Your task to perform on an android device: What's the news in Uruguay? Image 0: 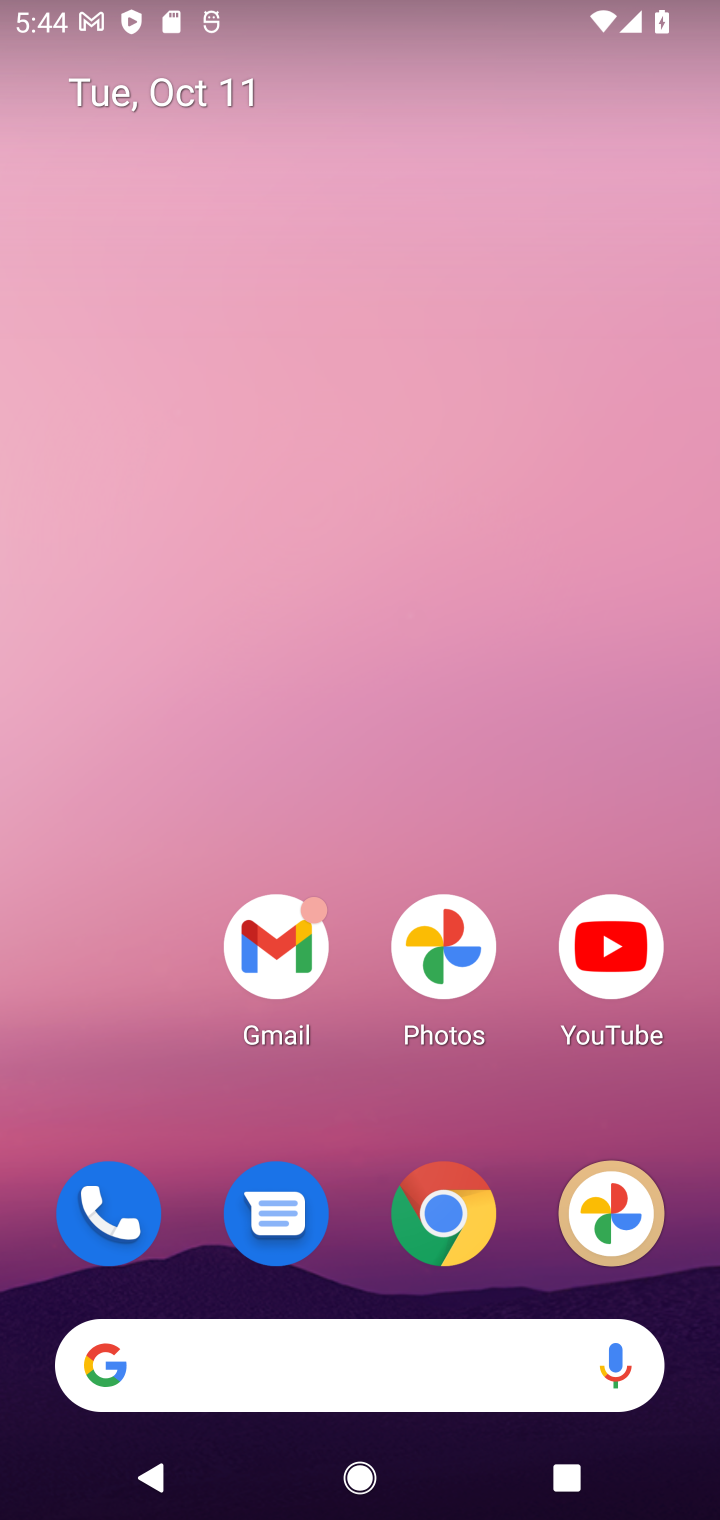
Step 0: click (454, 1255)
Your task to perform on an android device: What's the news in Uruguay? Image 1: 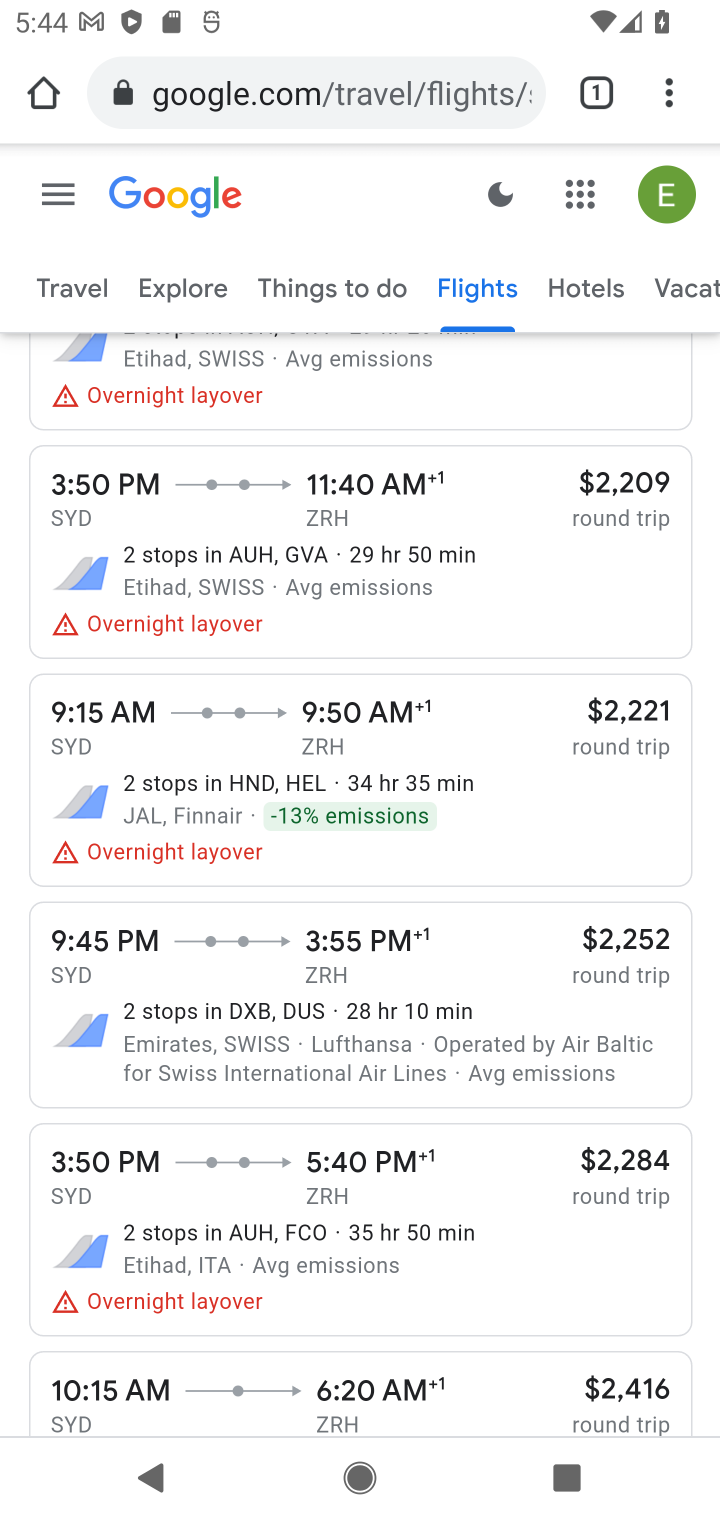
Step 1: click (333, 68)
Your task to perform on an android device: What's the news in Uruguay? Image 2: 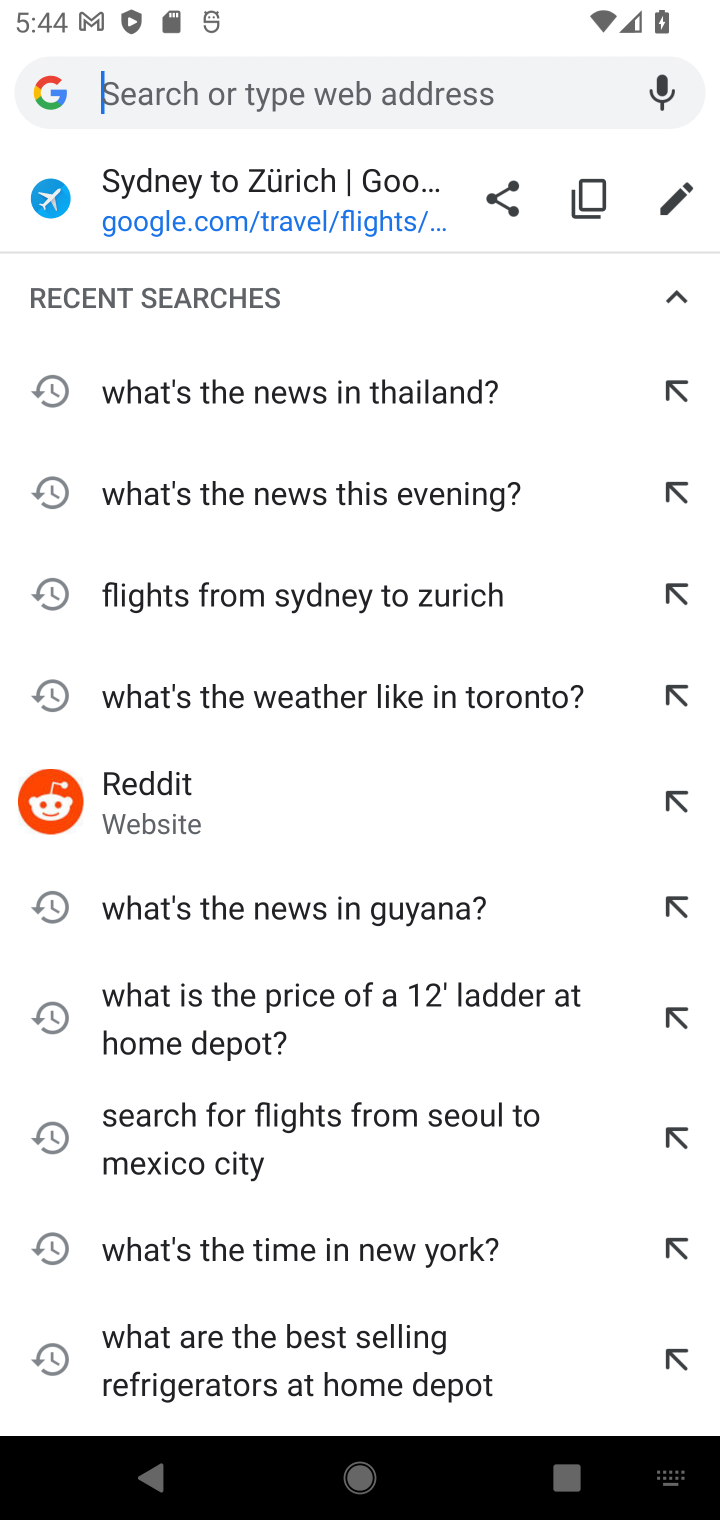
Step 2: type "What's the news in Uruguay?"
Your task to perform on an android device: What's the news in Uruguay? Image 3: 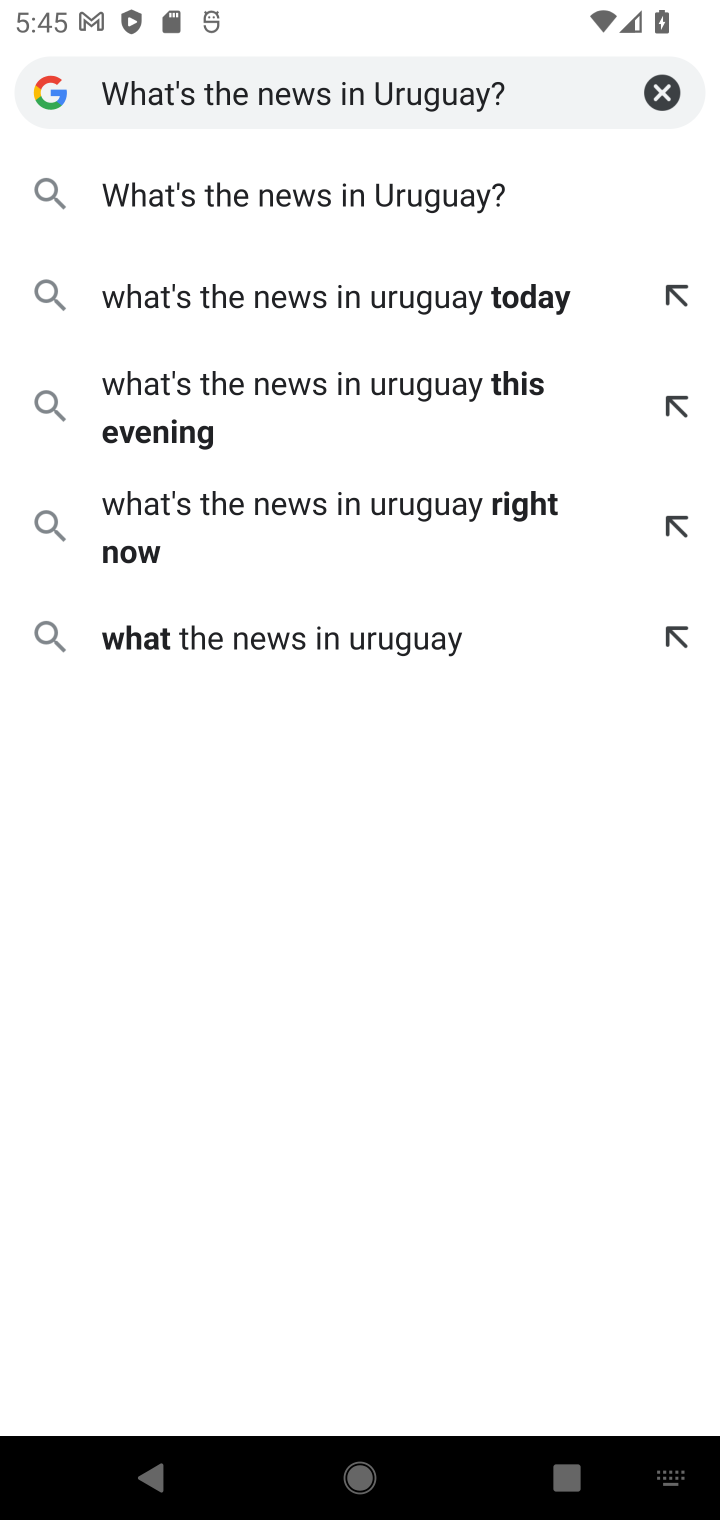
Step 3: press enter
Your task to perform on an android device: What's the news in Uruguay? Image 4: 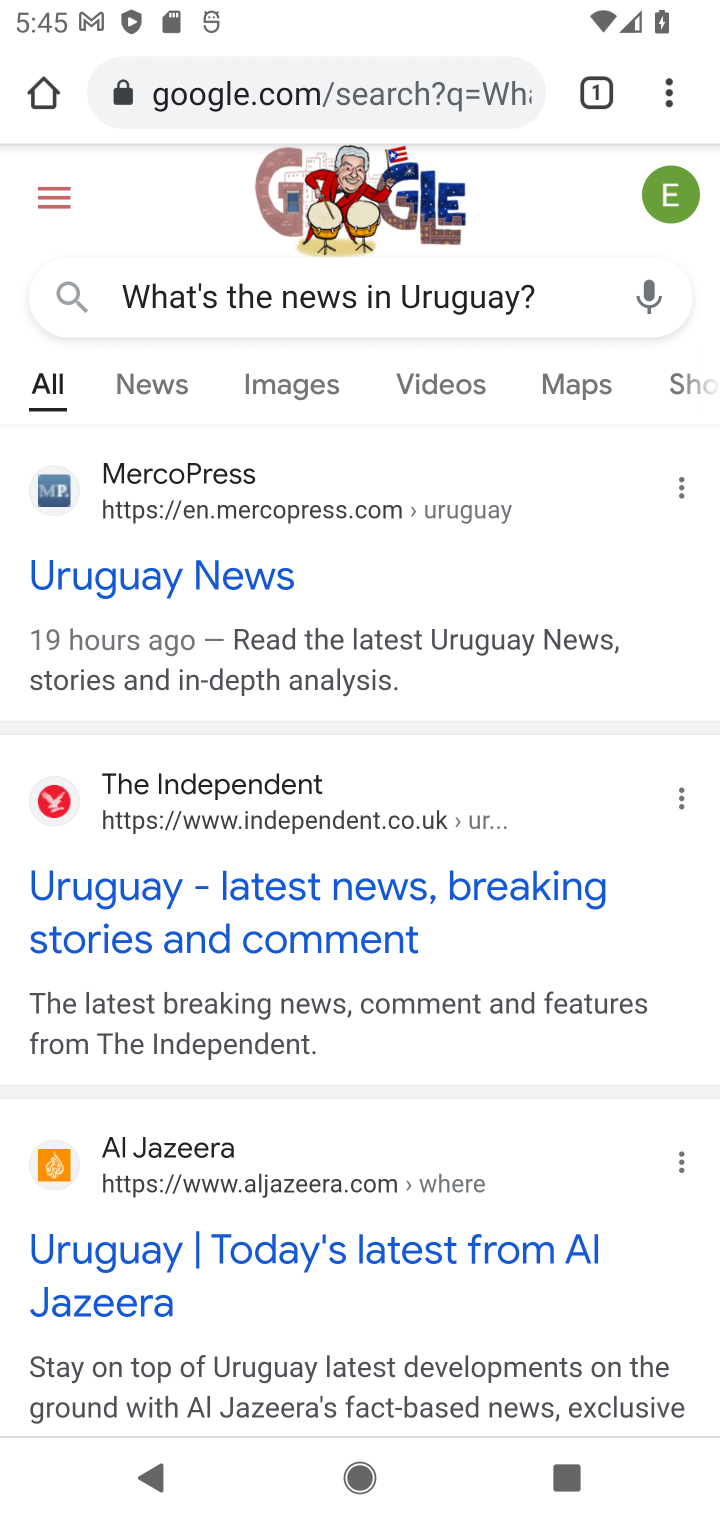
Step 4: click (227, 552)
Your task to perform on an android device: What's the news in Uruguay? Image 5: 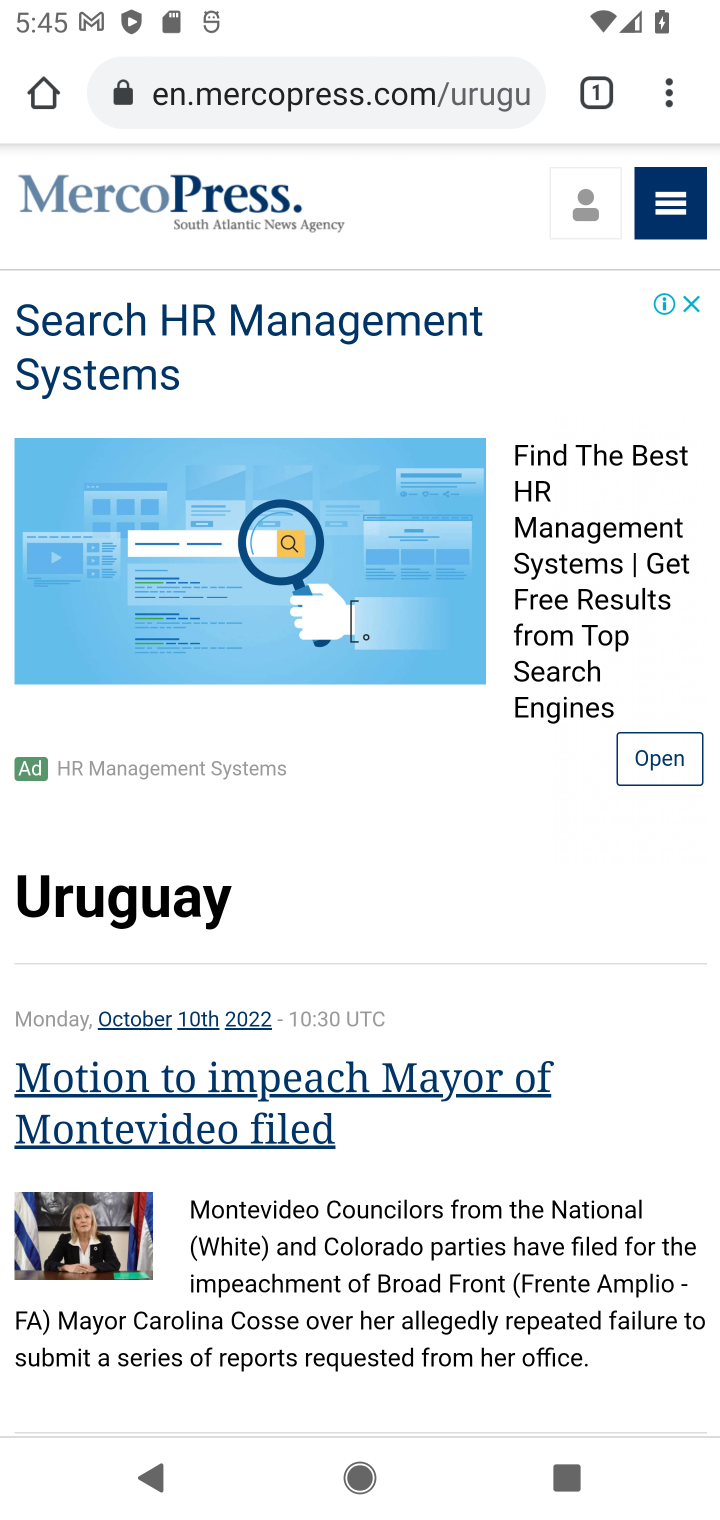
Step 5: drag from (448, 1246) to (432, 131)
Your task to perform on an android device: What's the news in Uruguay? Image 6: 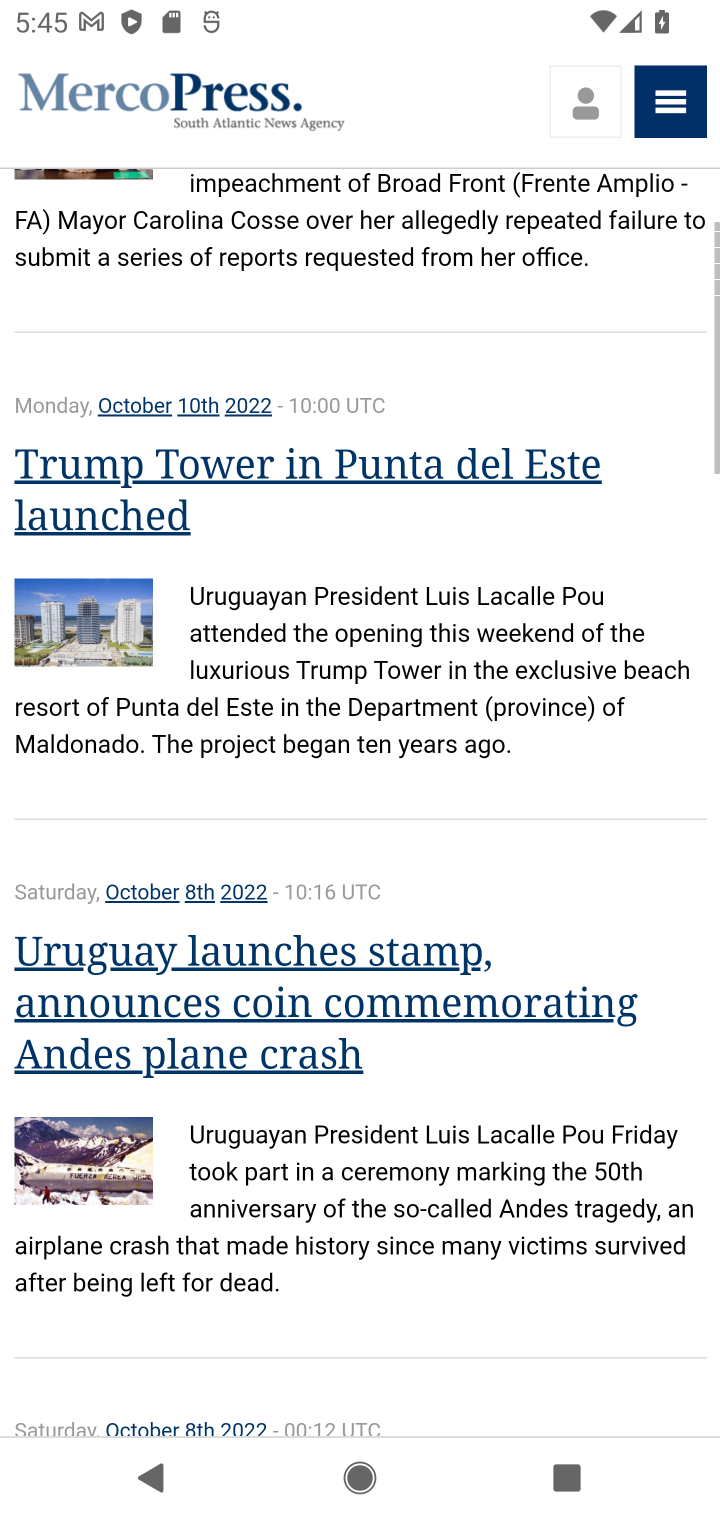
Step 6: drag from (158, 1336) to (397, 356)
Your task to perform on an android device: What's the news in Uruguay? Image 7: 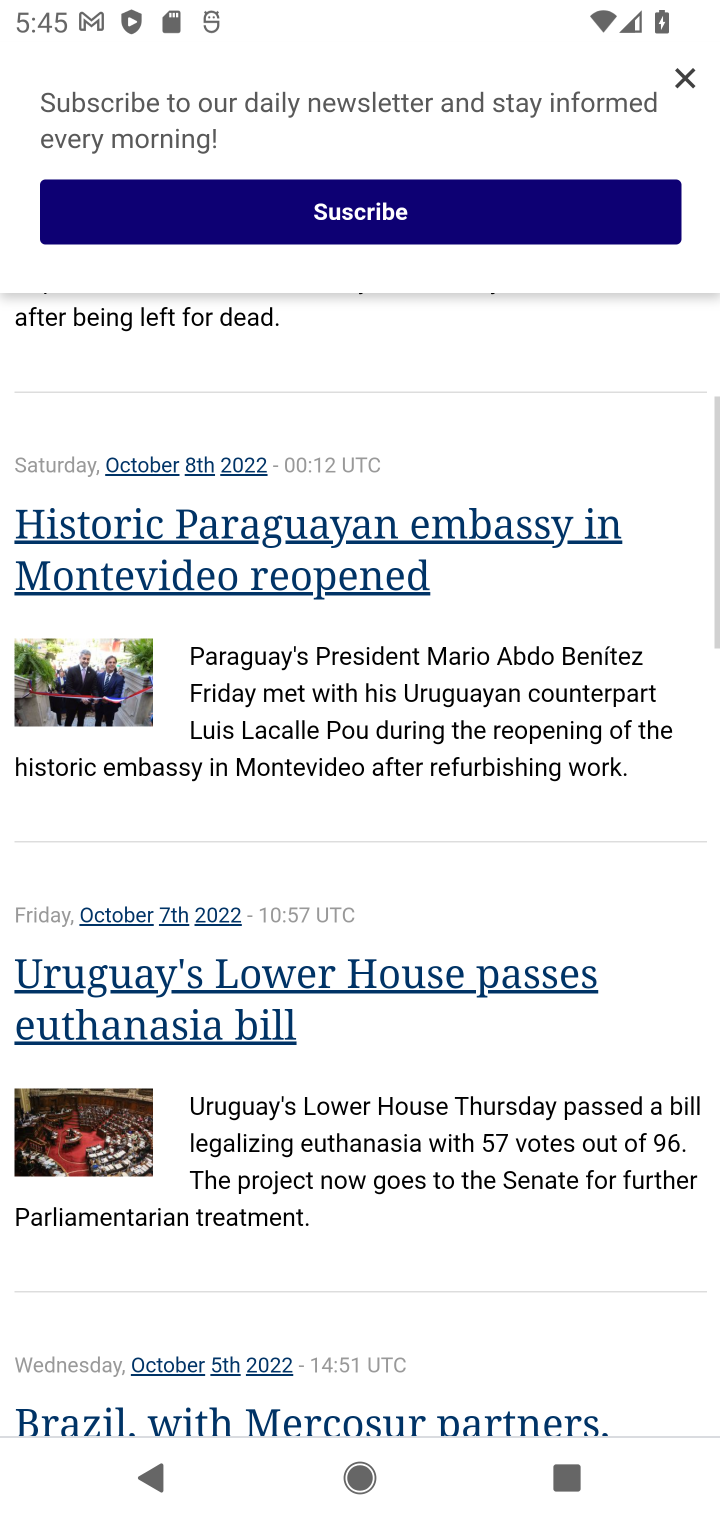
Step 7: drag from (272, 1194) to (370, 520)
Your task to perform on an android device: What's the news in Uruguay? Image 8: 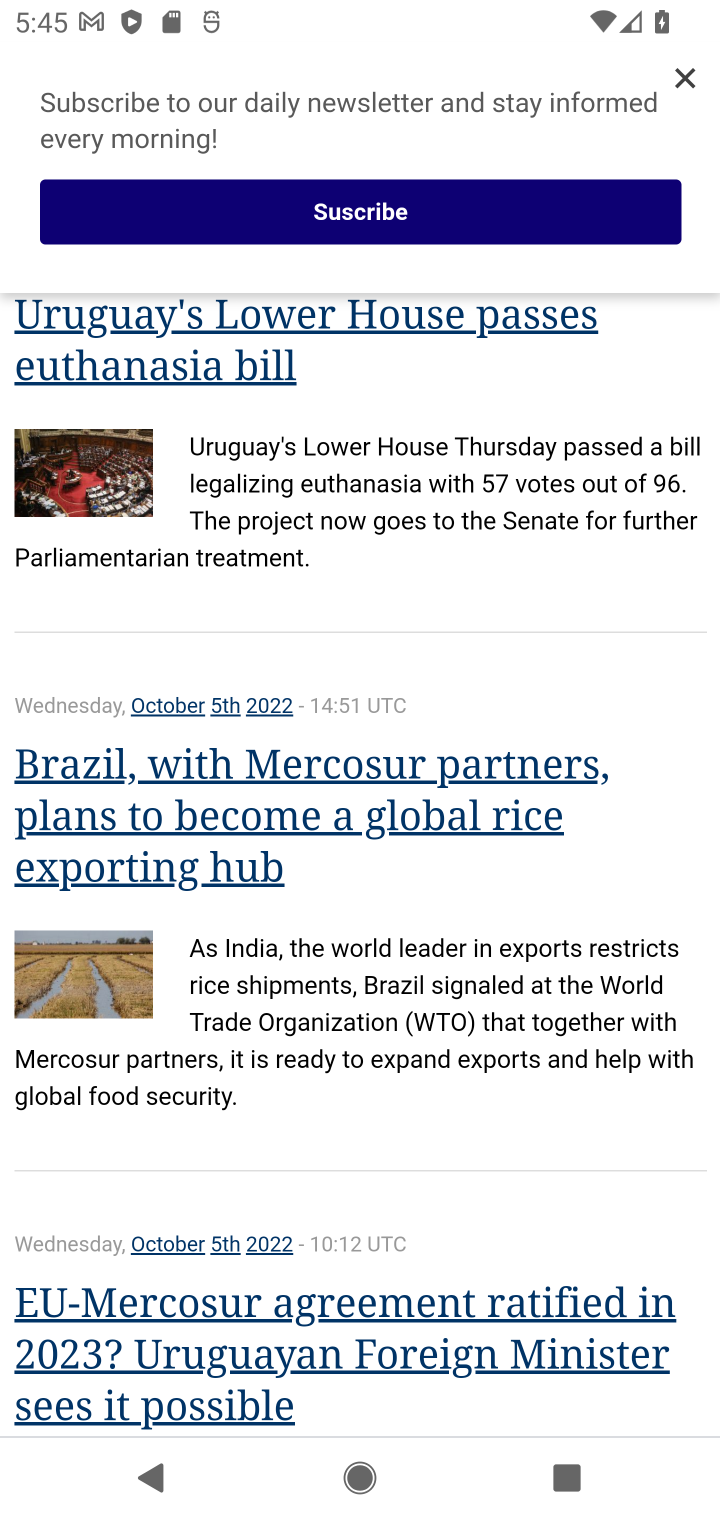
Step 8: drag from (387, 1254) to (496, 47)
Your task to perform on an android device: What's the news in Uruguay? Image 9: 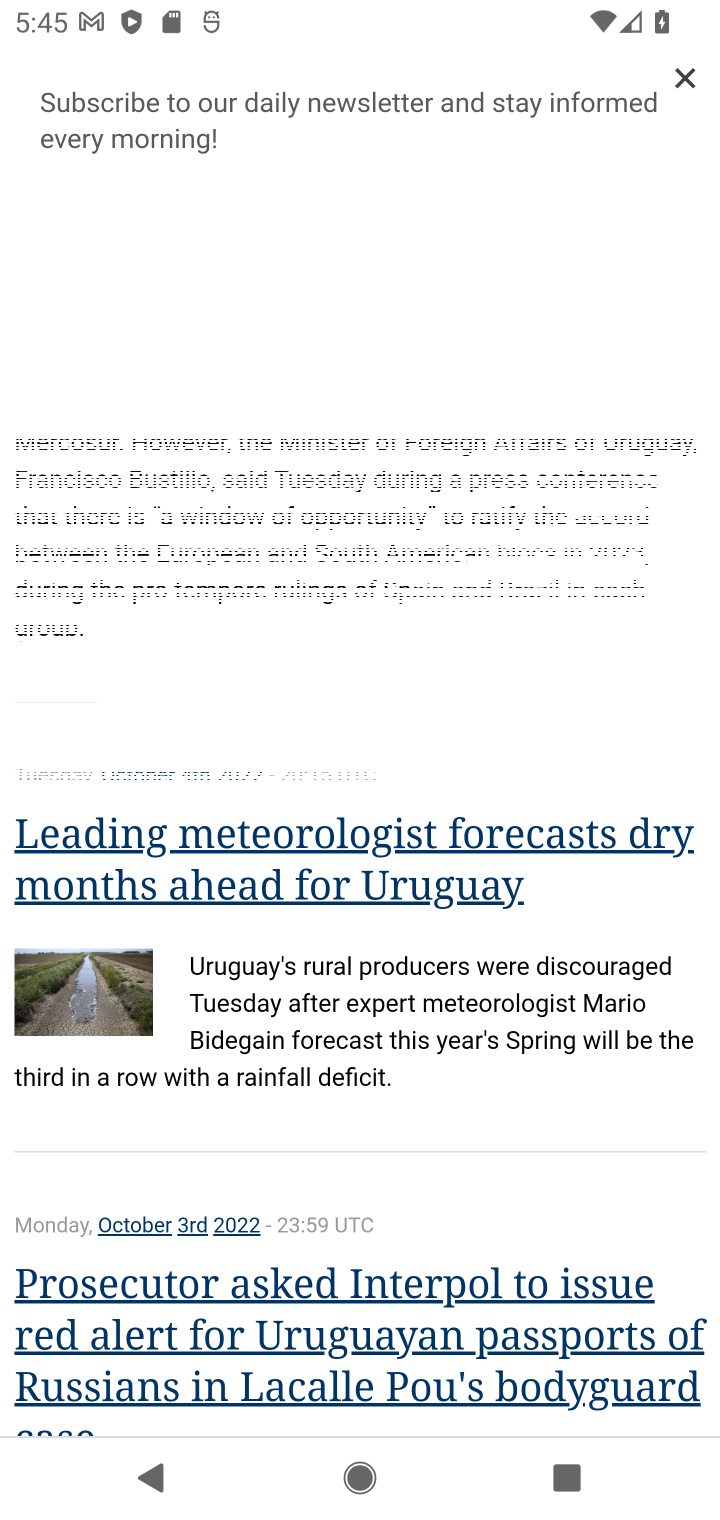
Step 9: drag from (311, 1385) to (450, 284)
Your task to perform on an android device: What's the news in Uruguay? Image 10: 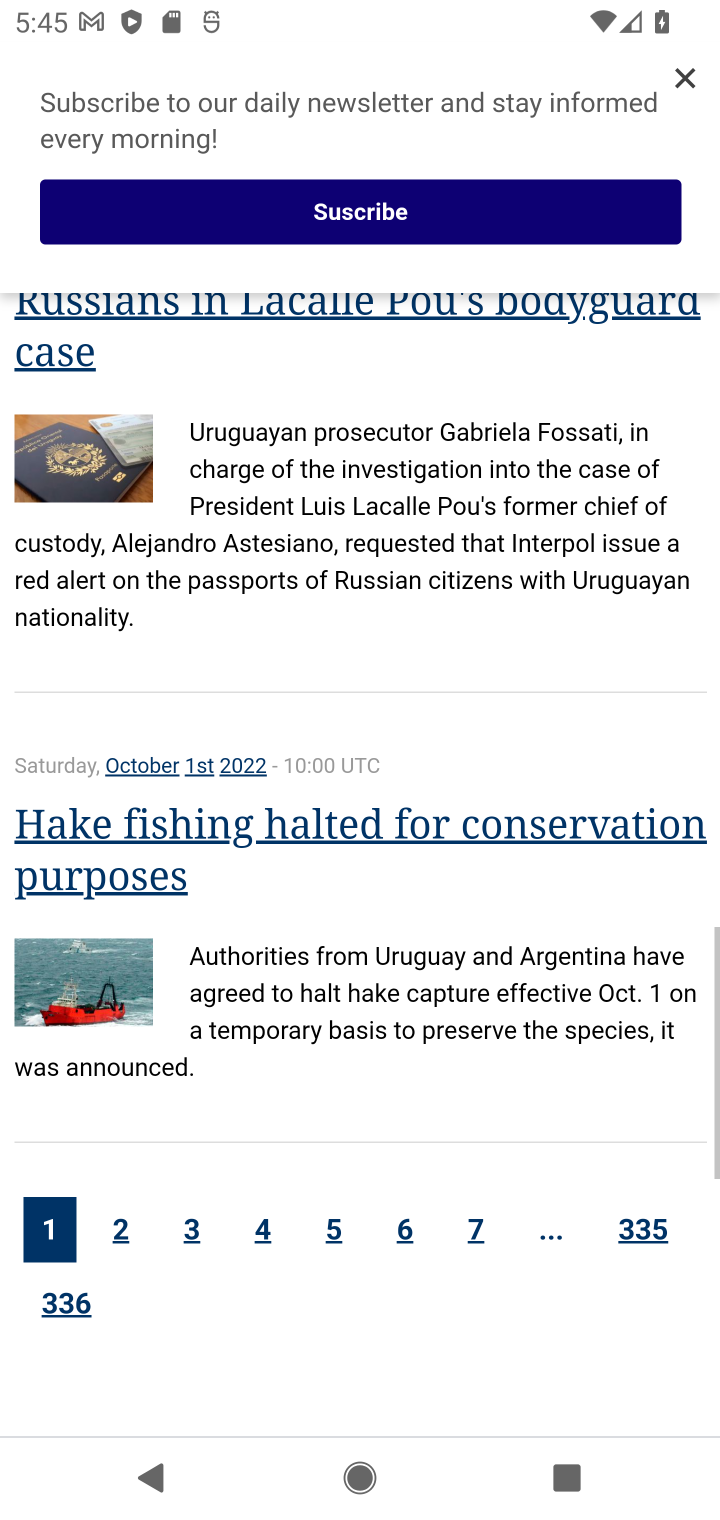
Step 10: drag from (309, 1402) to (399, 367)
Your task to perform on an android device: What's the news in Uruguay? Image 11: 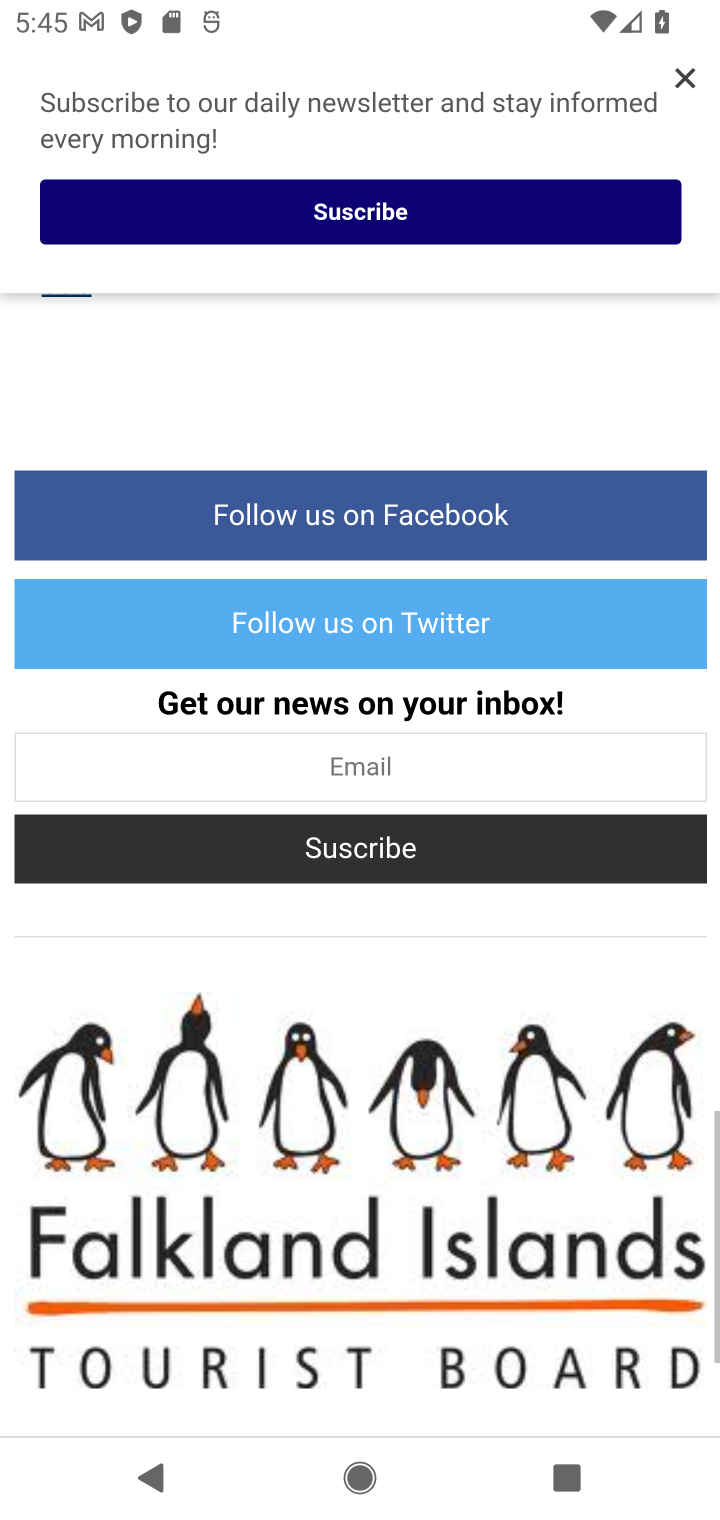
Step 11: drag from (230, 1421) to (285, 1082)
Your task to perform on an android device: What's the news in Uruguay? Image 12: 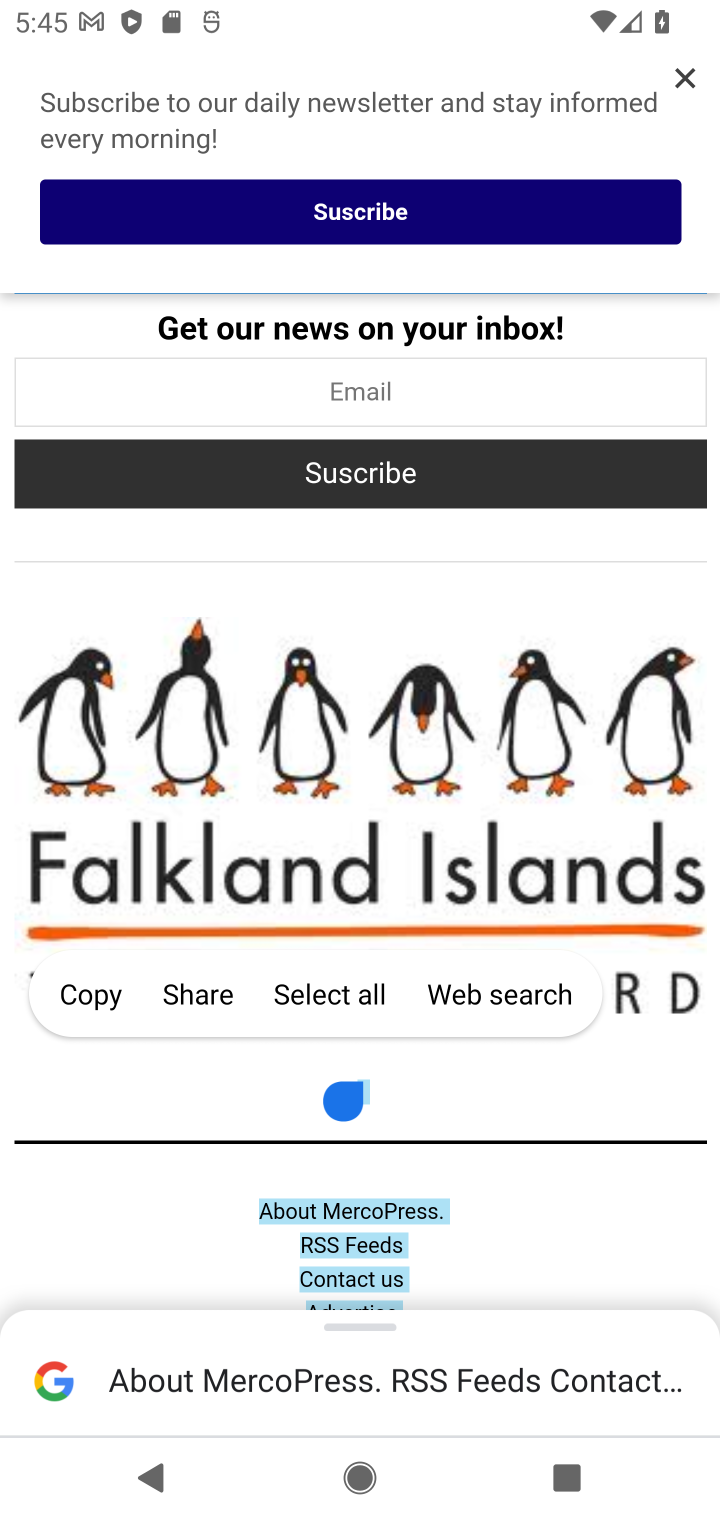
Step 12: drag from (367, 358) to (250, 1018)
Your task to perform on an android device: What's the news in Uruguay? Image 13: 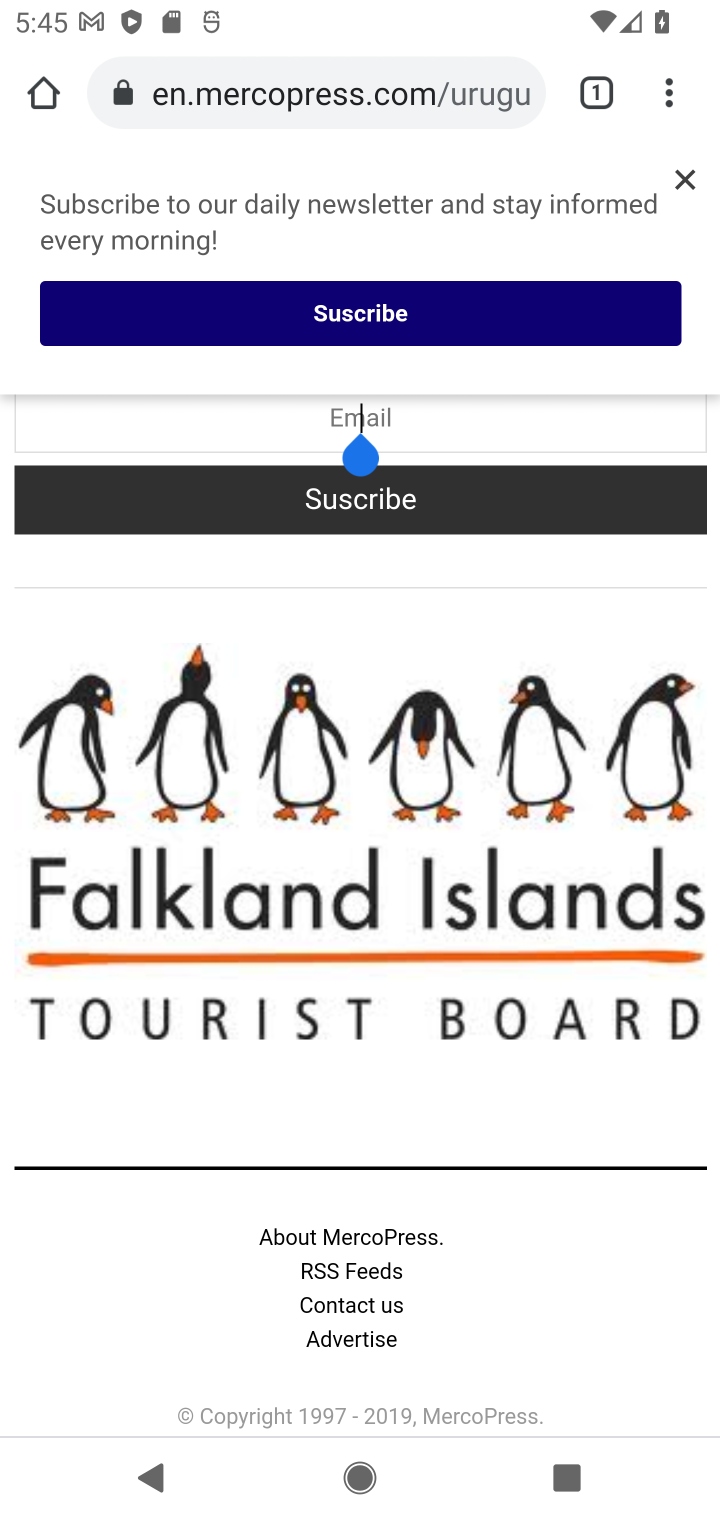
Step 13: click (160, 1203)
Your task to perform on an android device: What's the news in Uruguay? Image 14: 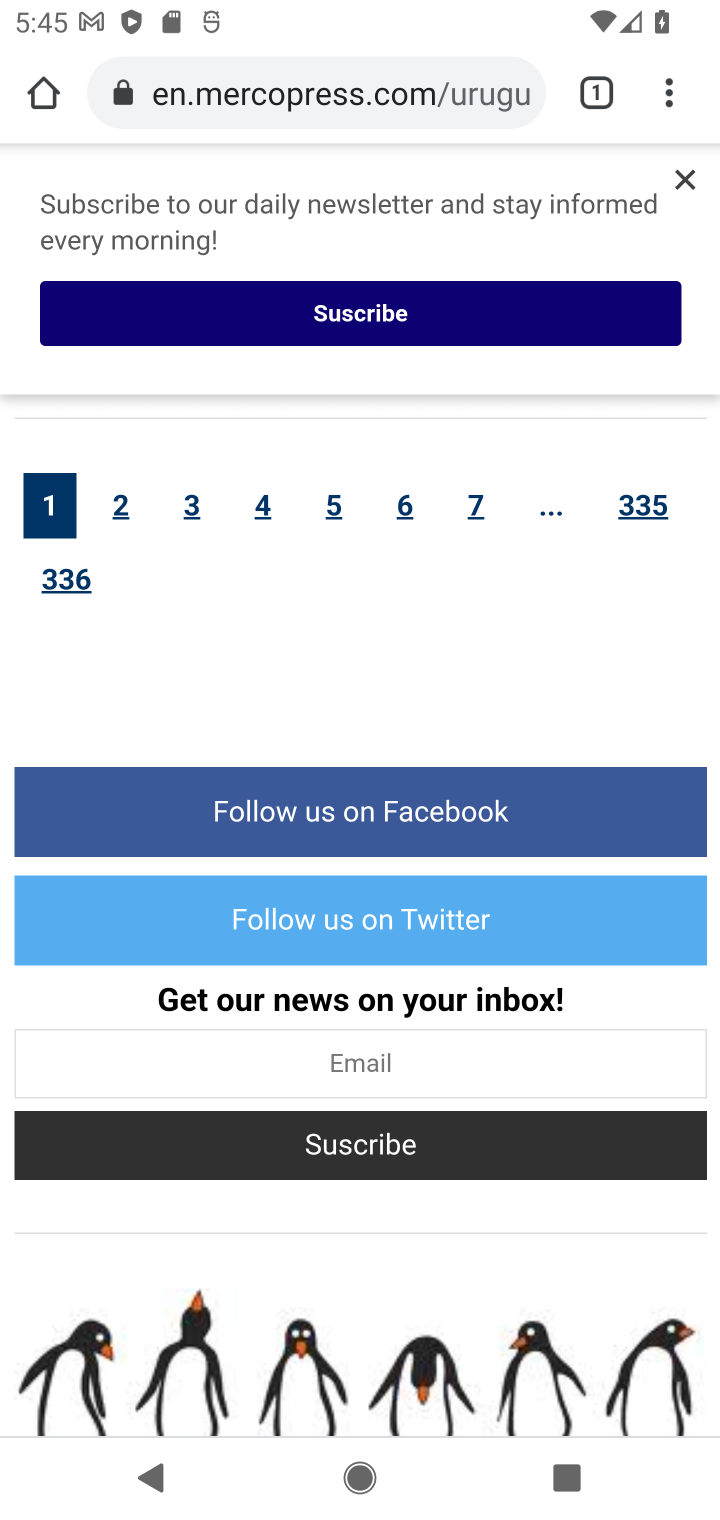
Step 14: click (124, 507)
Your task to perform on an android device: What's the news in Uruguay? Image 15: 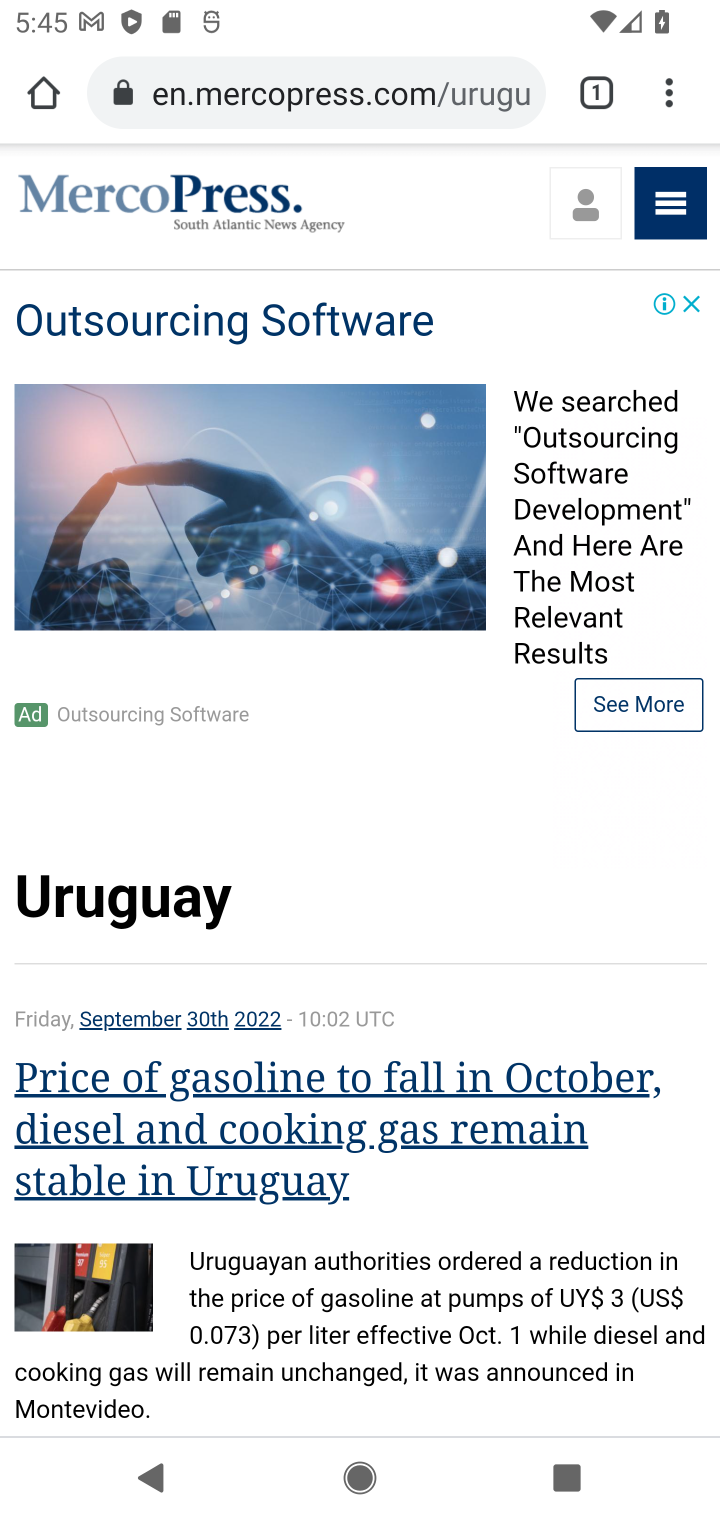
Step 15: drag from (219, 1002) to (292, 429)
Your task to perform on an android device: What's the news in Uruguay? Image 16: 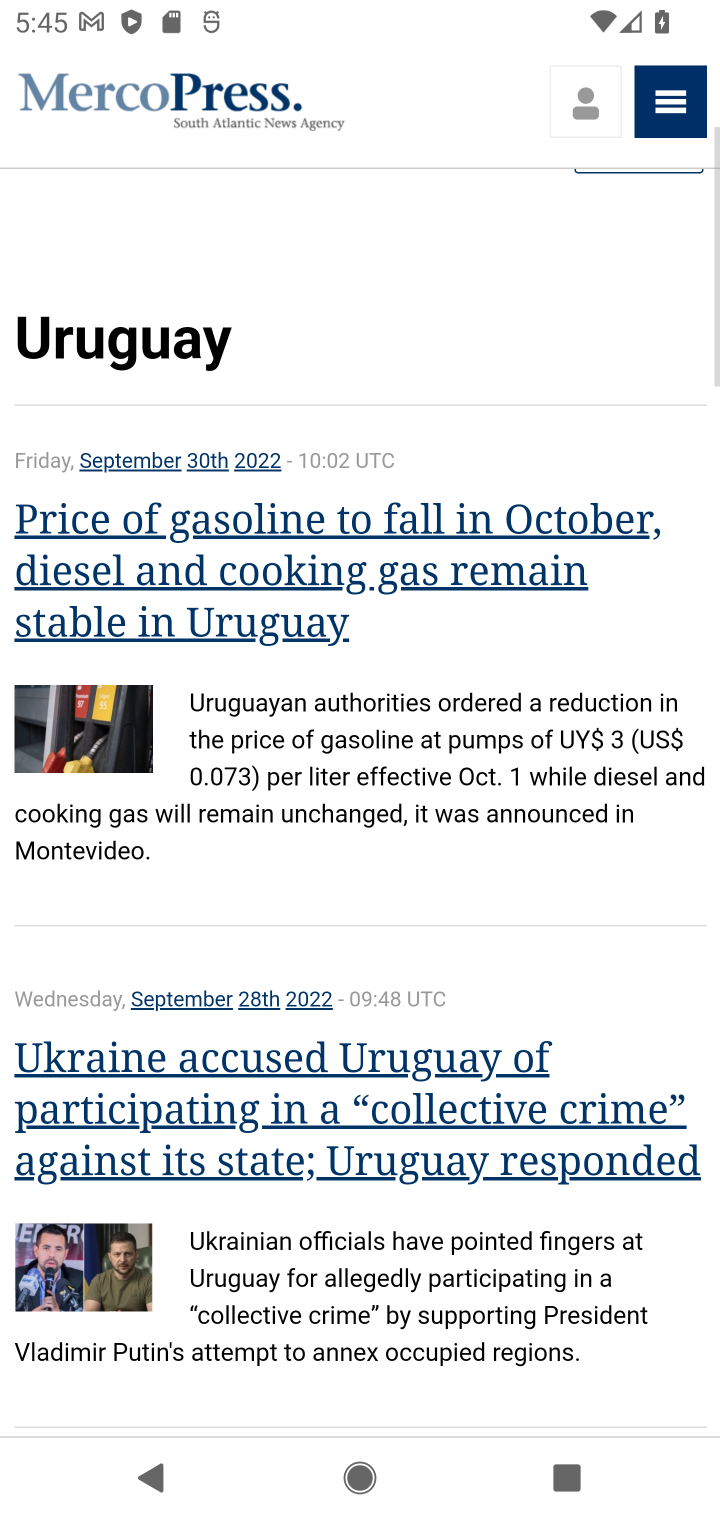
Step 16: press back button
Your task to perform on an android device: What's the news in Uruguay? Image 17: 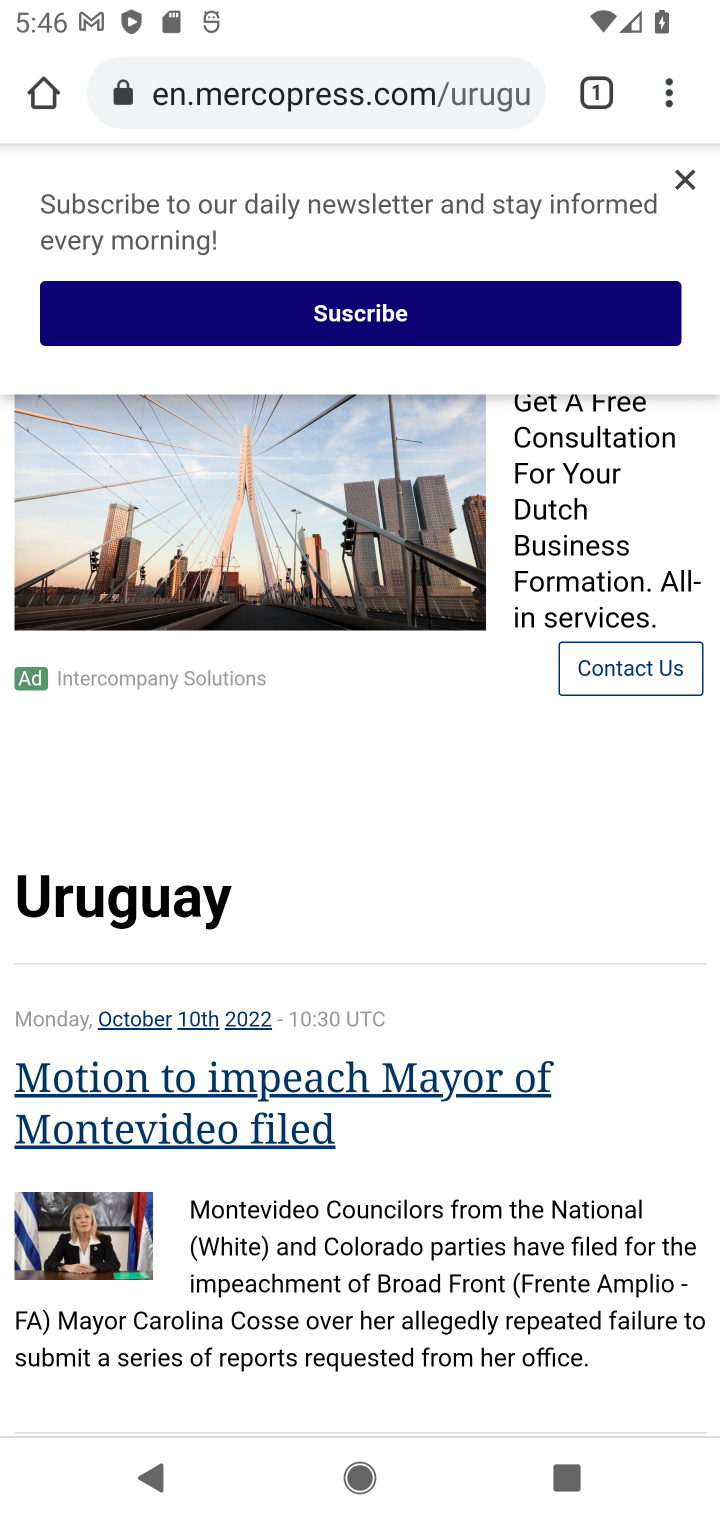
Step 17: press back button
Your task to perform on an android device: What's the news in Uruguay? Image 18: 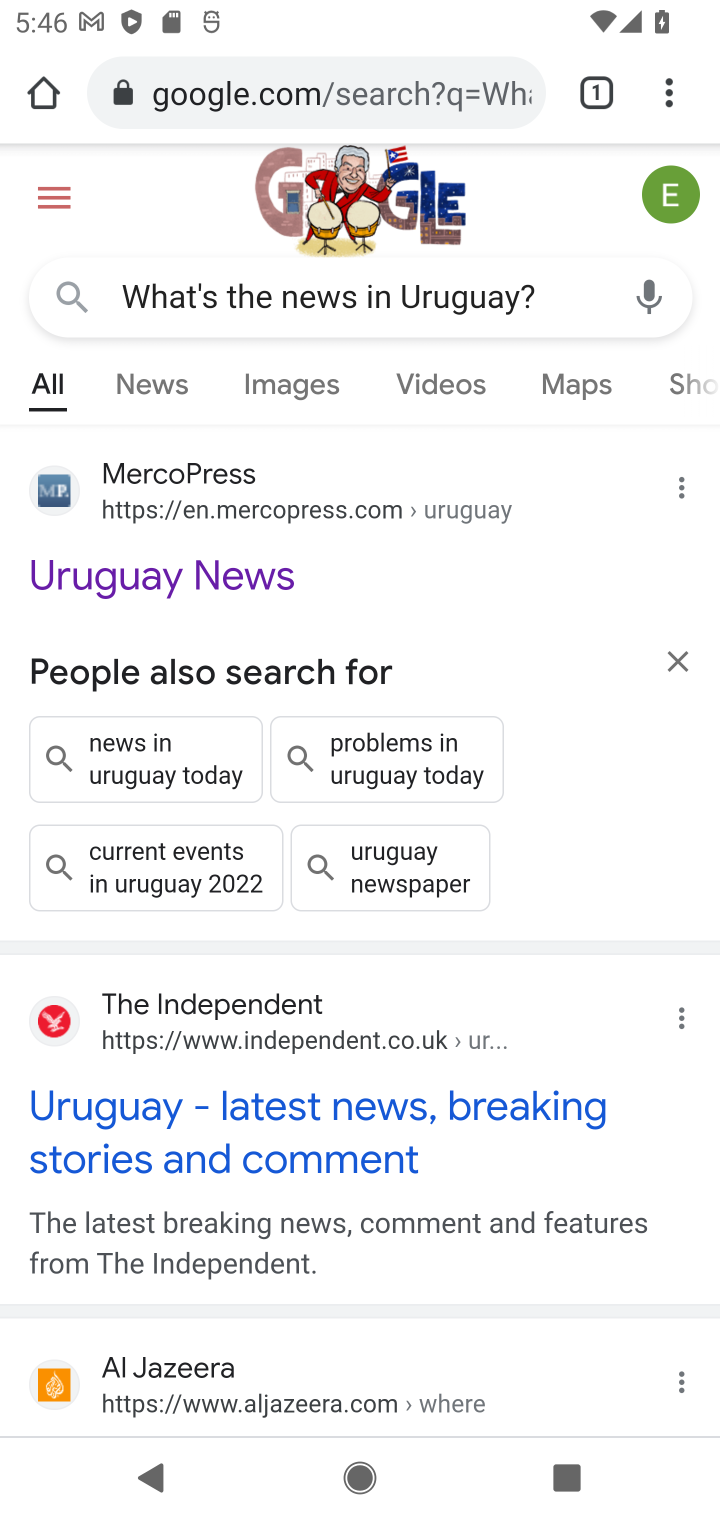
Step 18: click (289, 1109)
Your task to perform on an android device: What's the news in Uruguay? Image 19: 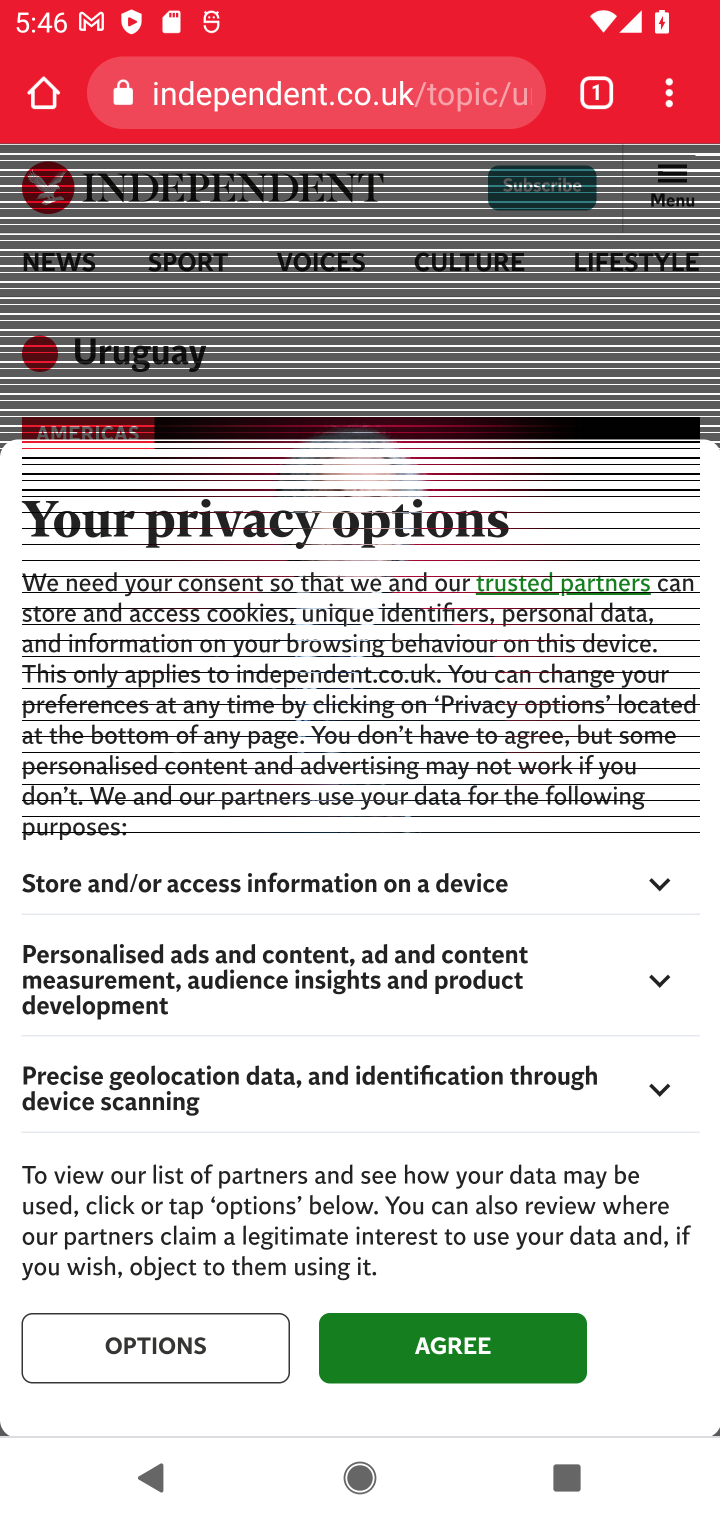
Step 19: click (368, 1342)
Your task to perform on an android device: What's the news in Uruguay? Image 20: 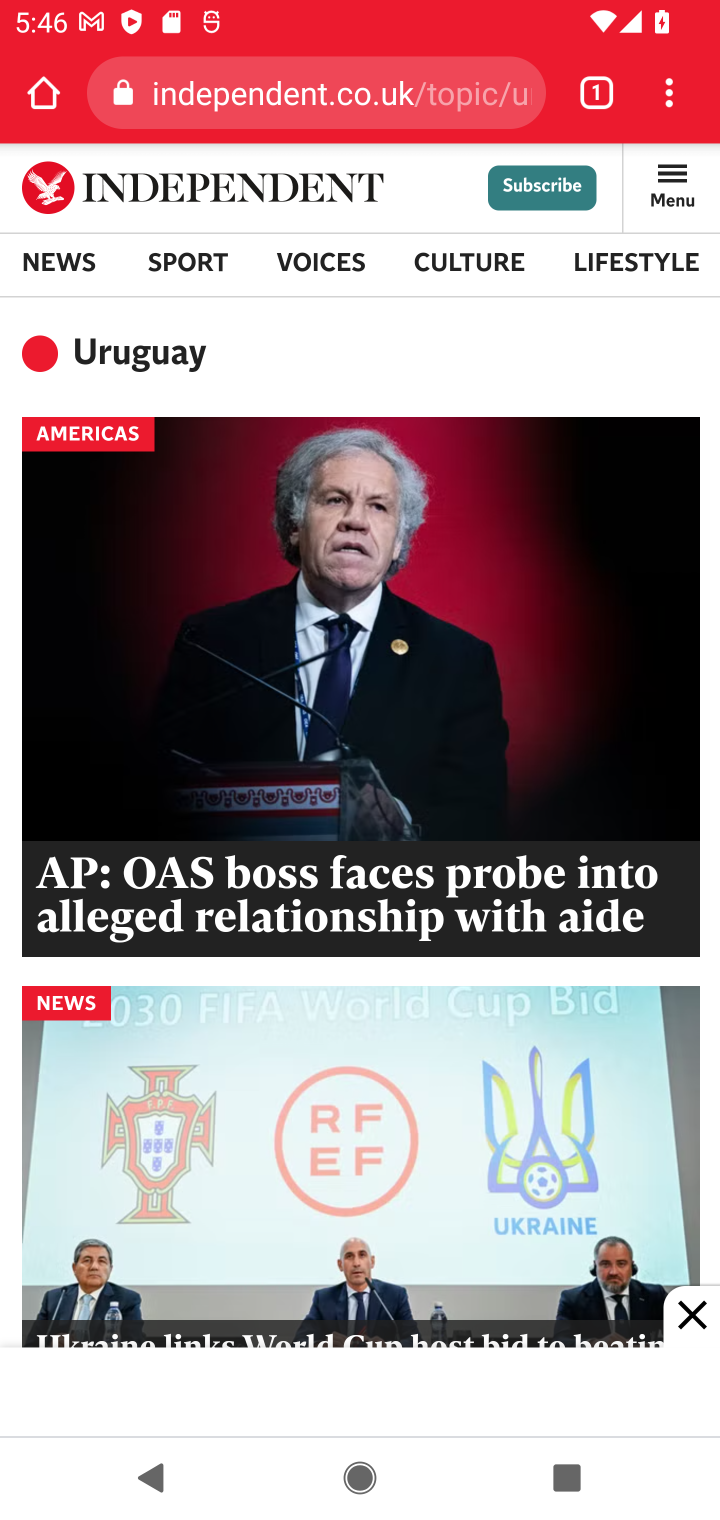
Step 20: drag from (370, 1315) to (360, 260)
Your task to perform on an android device: What's the news in Uruguay? Image 21: 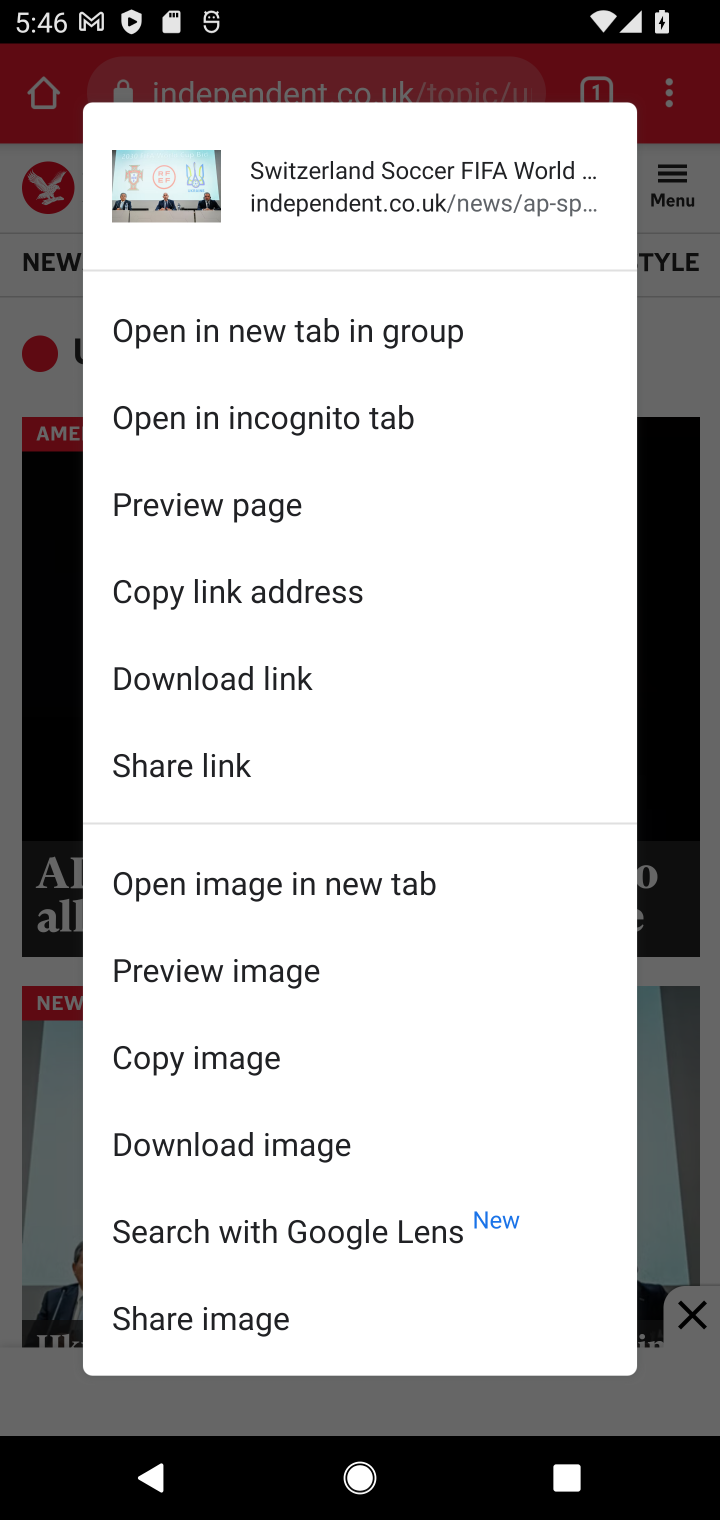
Step 21: click (669, 786)
Your task to perform on an android device: What's the news in Uruguay? Image 22: 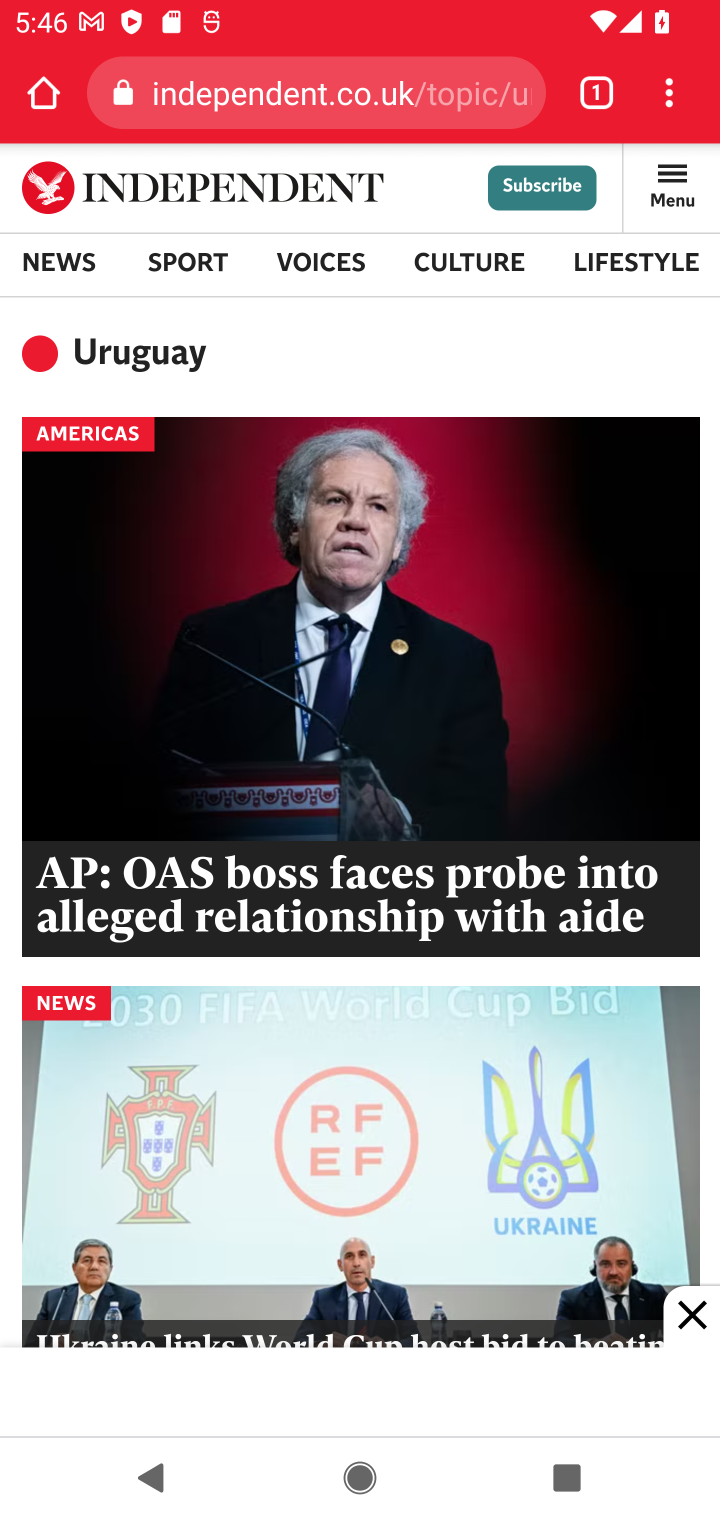
Step 22: drag from (514, 1222) to (435, 364)
Your task to perform on an android device: What's the news in Uruguay? Image 23: 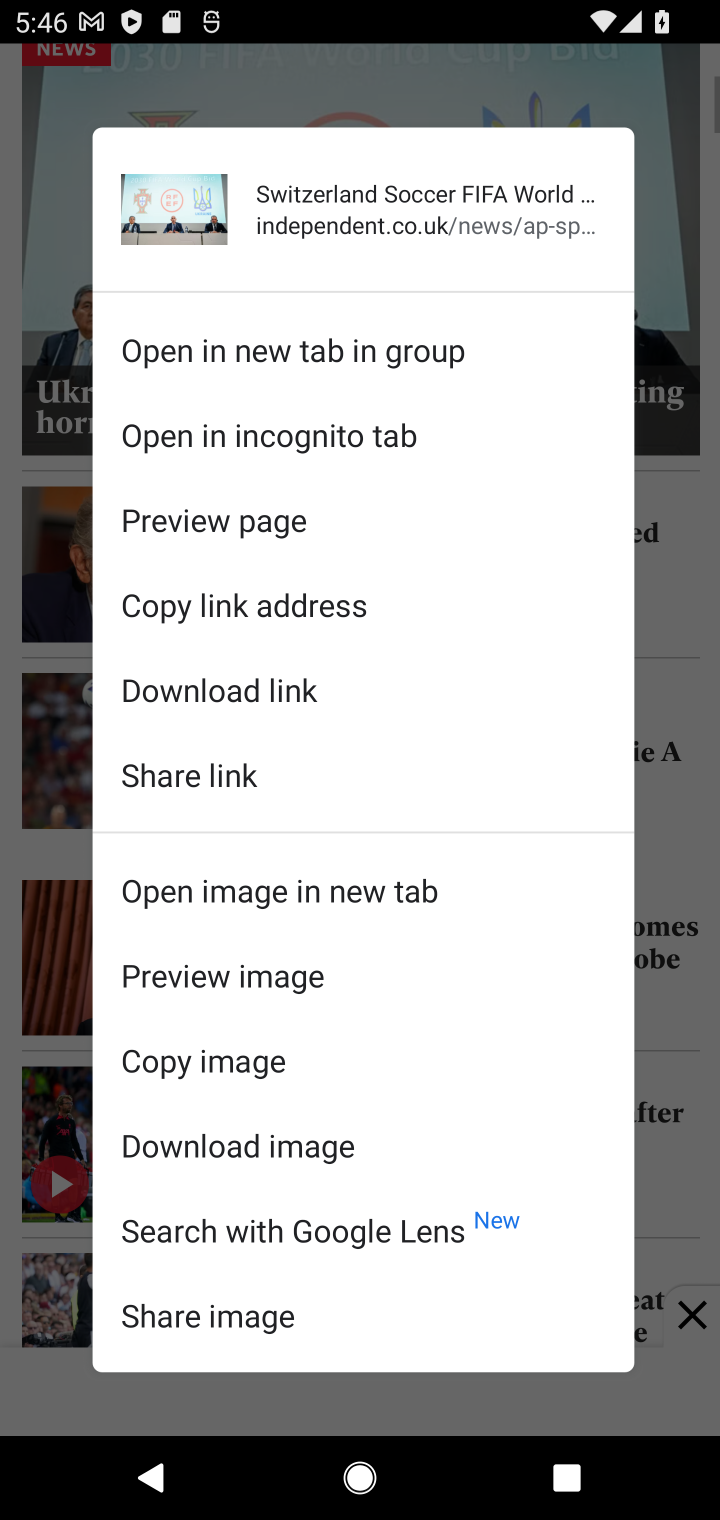
Step 23: drag from (465, 994) to (469, 486)
Your task to perform on an android device: What's the news in Uruguay? Image 24: 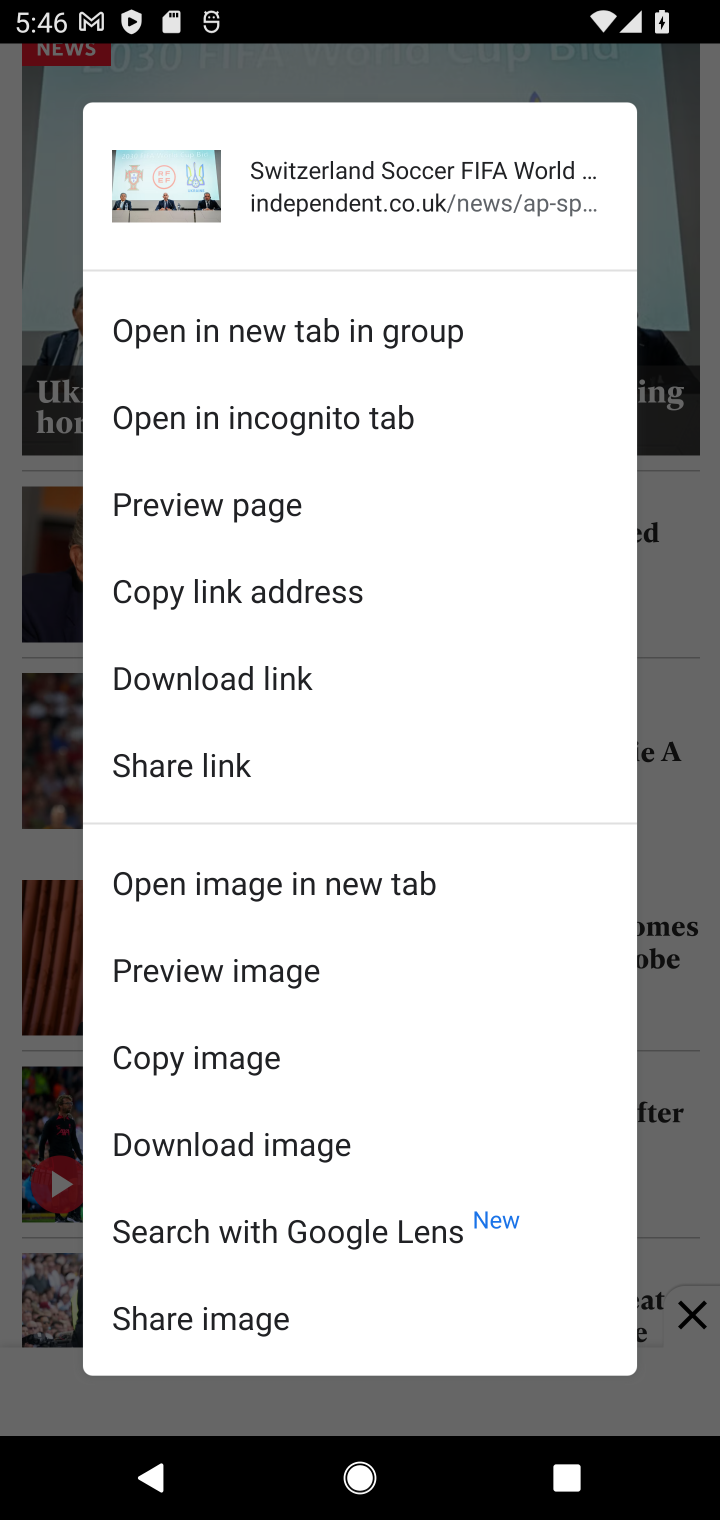
Step 24: click (638, 335)
Your task to perform on an android device: What's the news in Uruguay? Image 25: 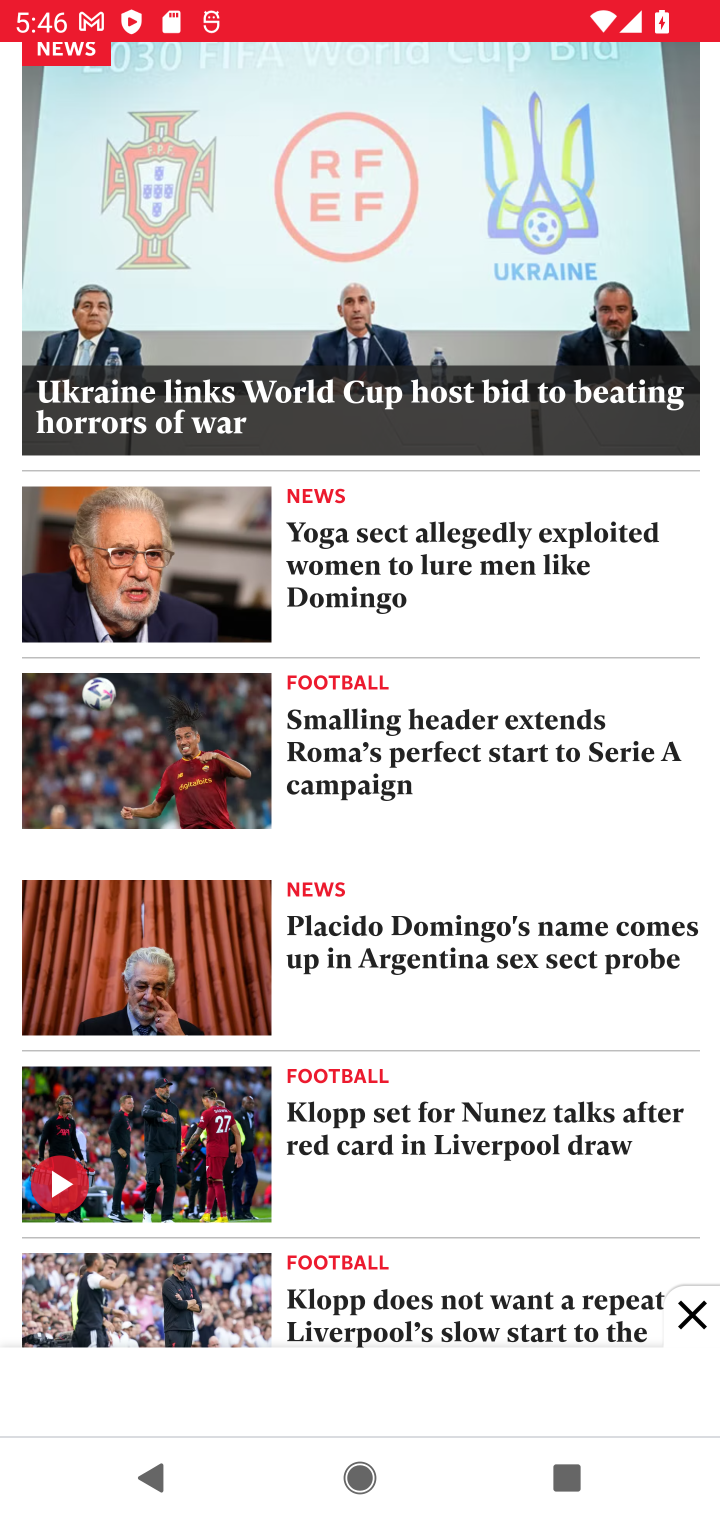
Step 25: drag from (613, 825) to (628, 321)
Your task to perform on an android device: What's the news in Uruguay? Image 26: 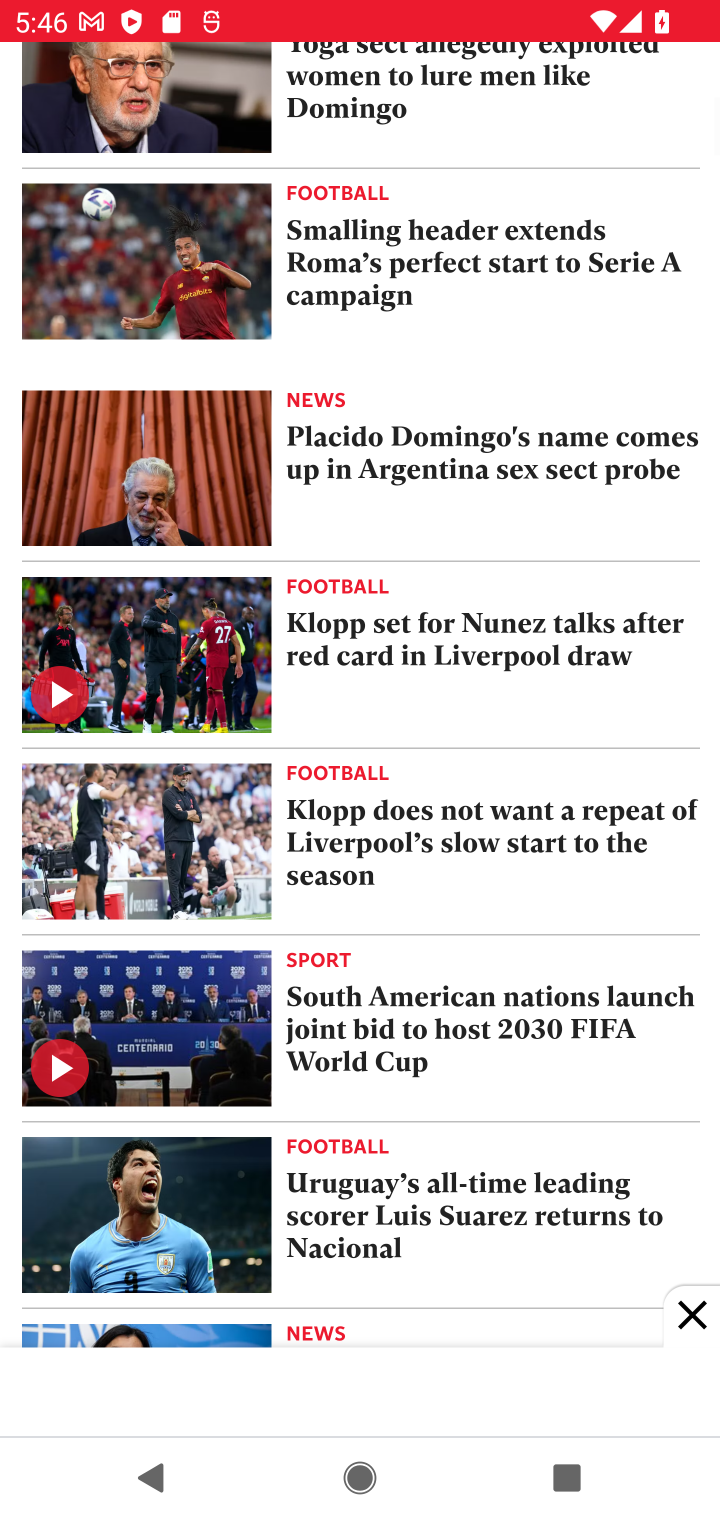
Step 26: press back button
Your task to perform on an android device: What's the news in Uruguay? Image 27: 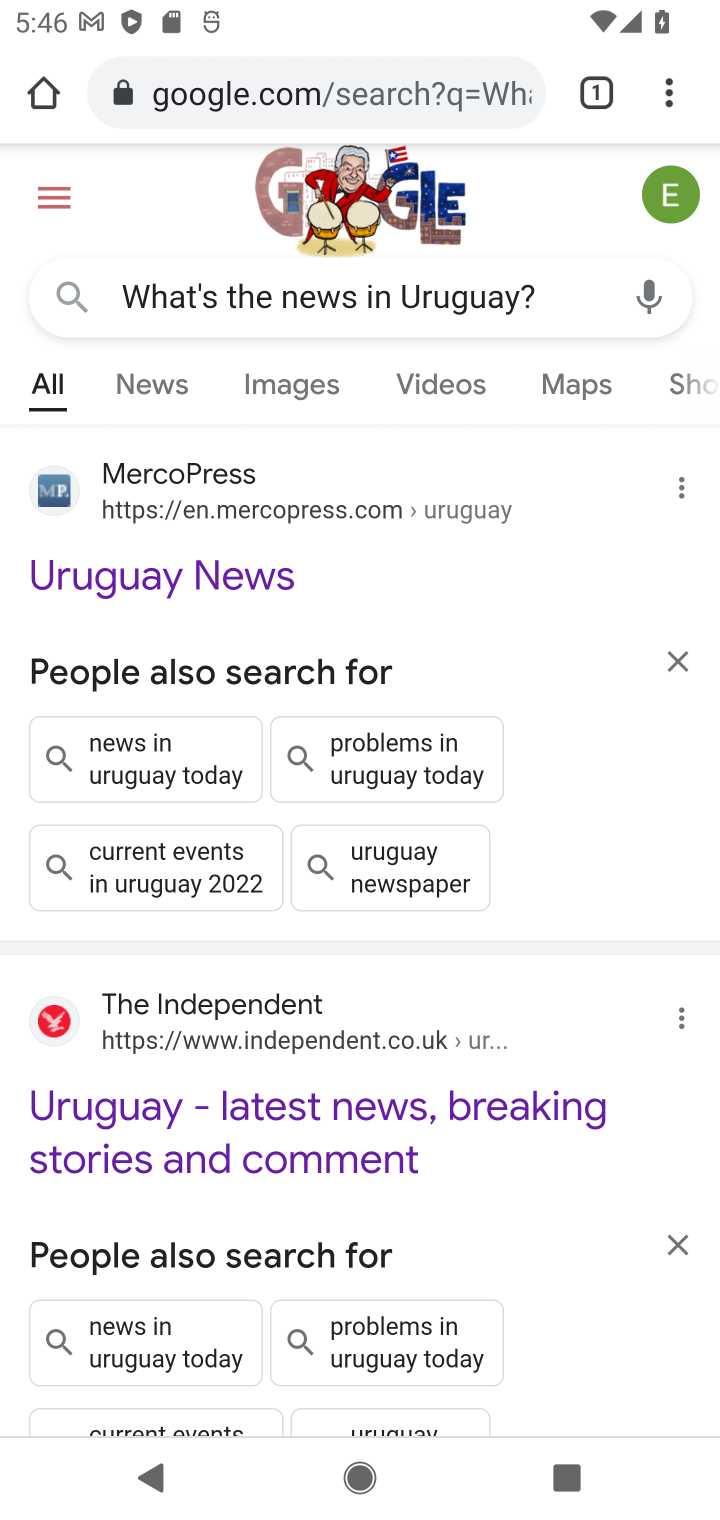
Step 27: drag from (500, 1150) to (603, 615)
Your task to perform on an android device: What's the news in Uruguay? Image 28: 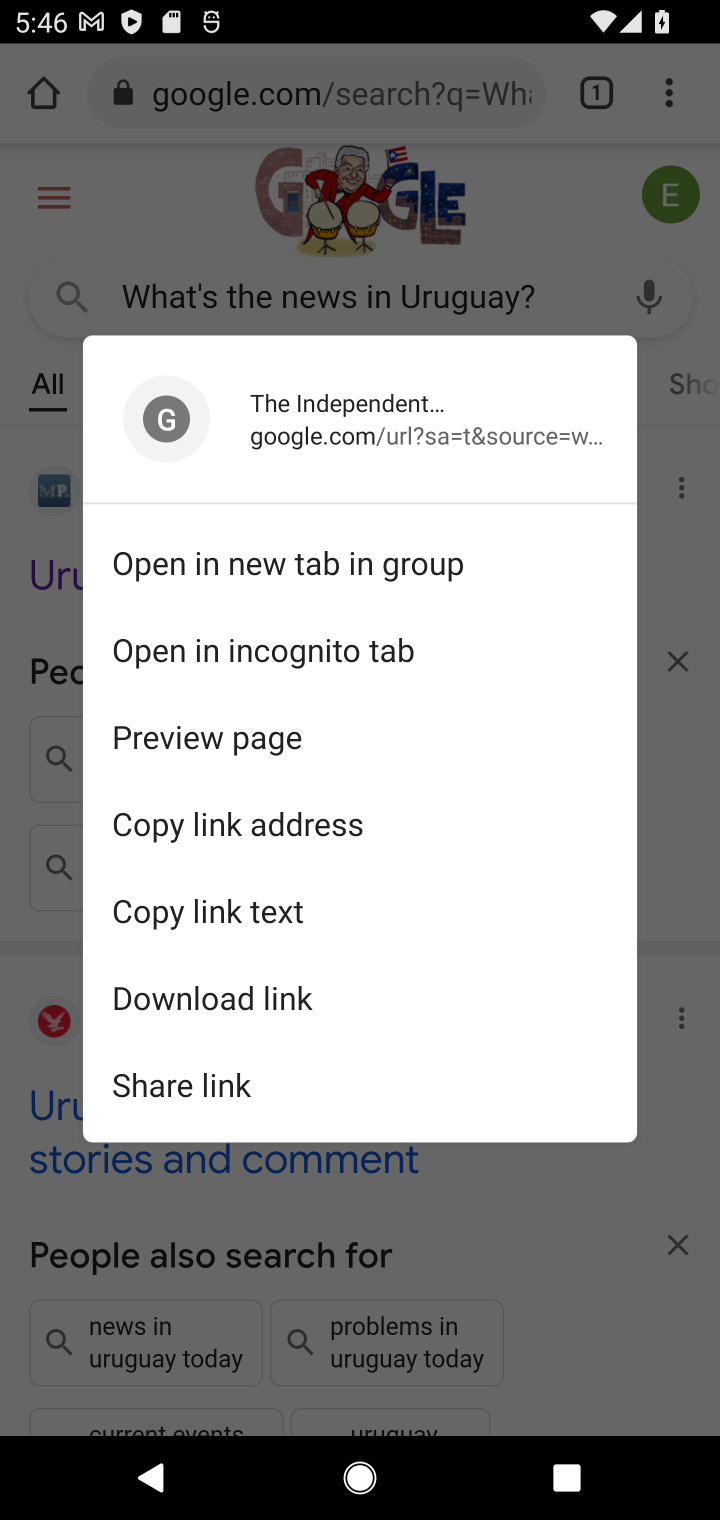
Step 28: drag from (488, 1276) to (451, 663)
Your task to perform on an android device: What's the news in Uruguay? Image 29: 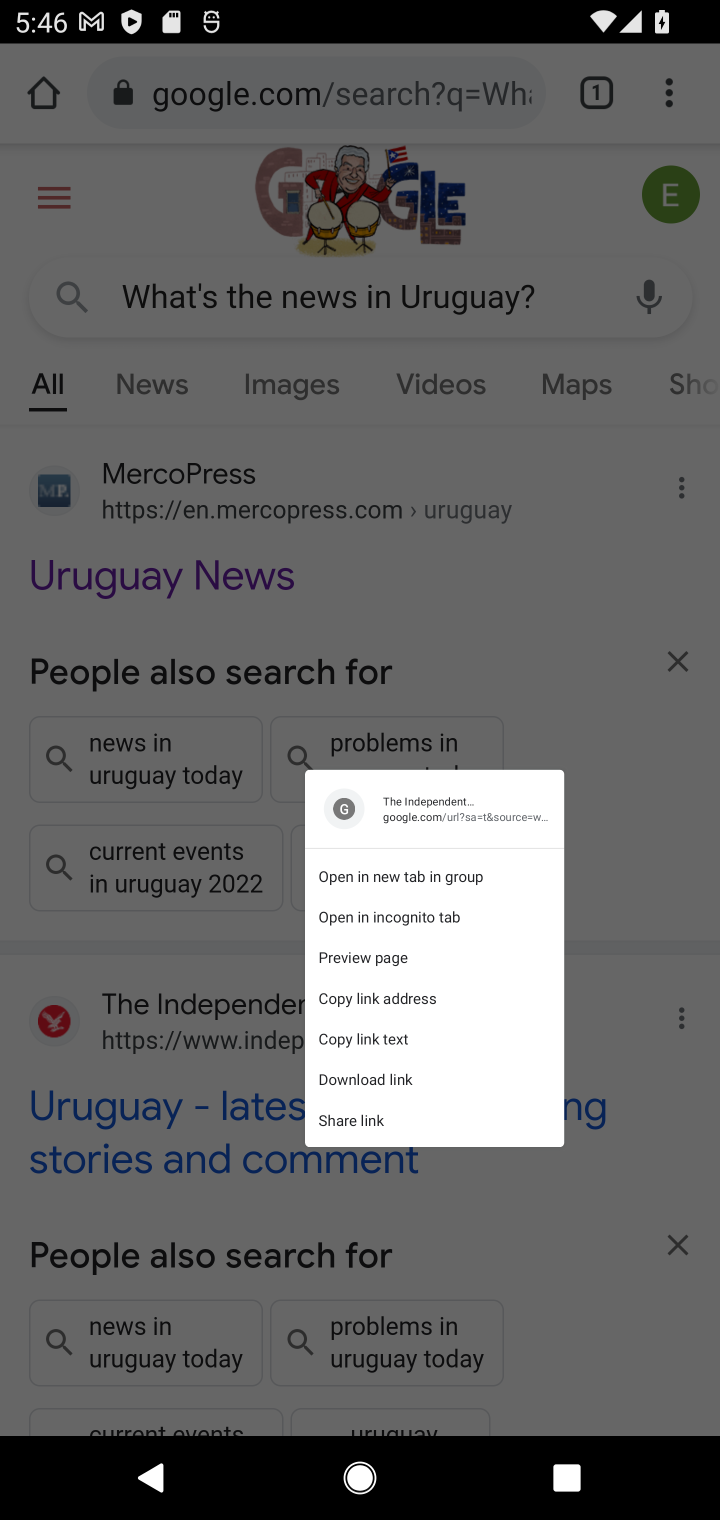
Step 29: click (480, 283)
Your task to perform on an android device: What's the news in Uruguay? Image 30: 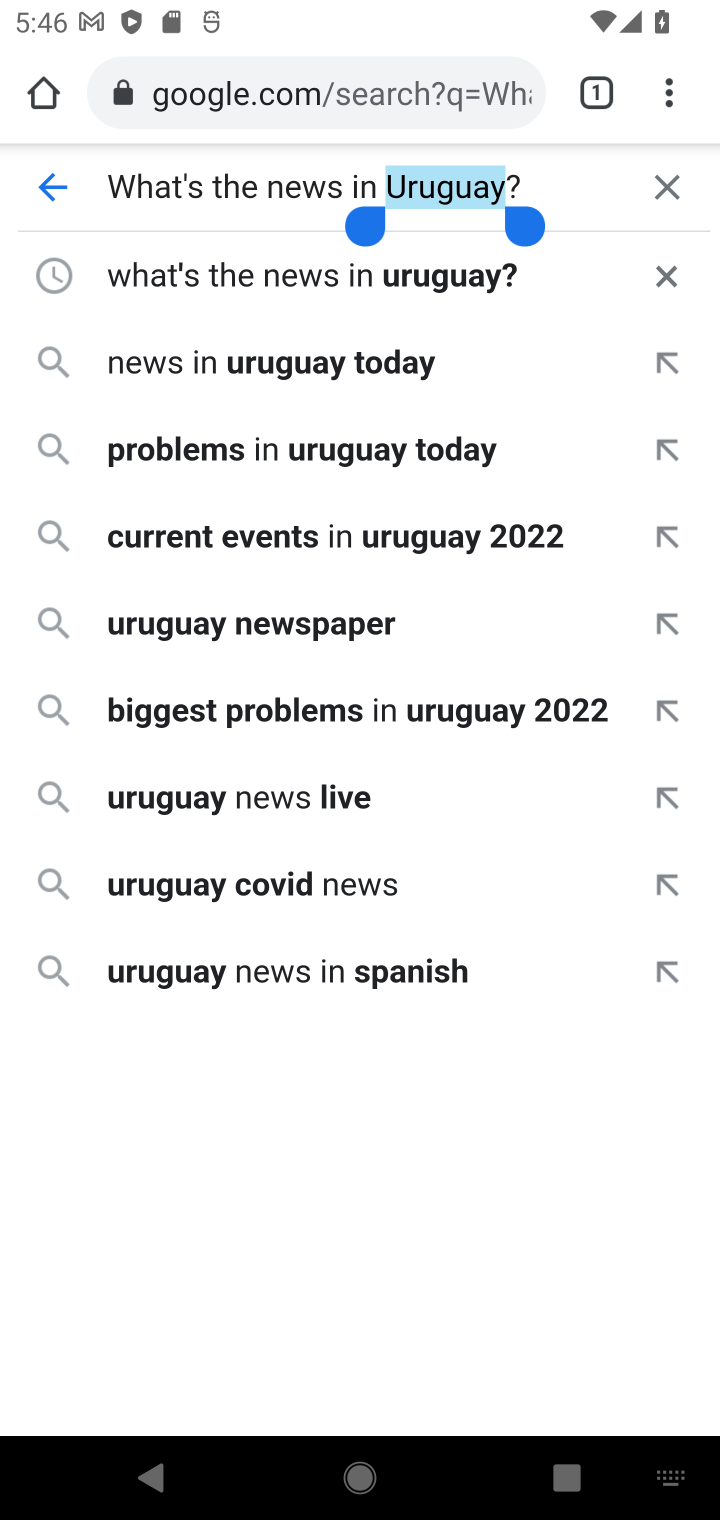
Step 30: press enter
Your task to perform on an android device: What's the news in Uruguay? Image 31: 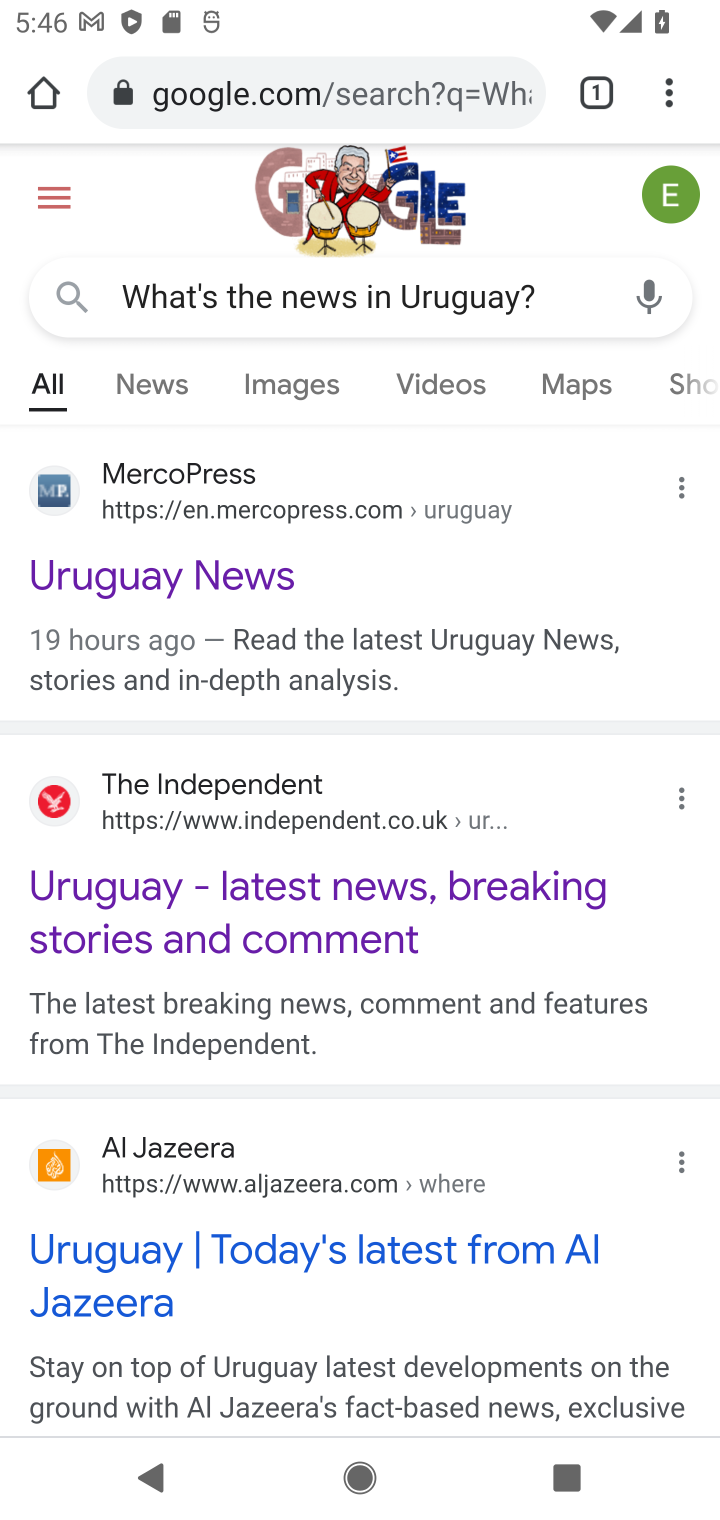
Step 31: click (369, 1258)
Your task to perform on an android device: What's the news in Uruguay? Image 32: 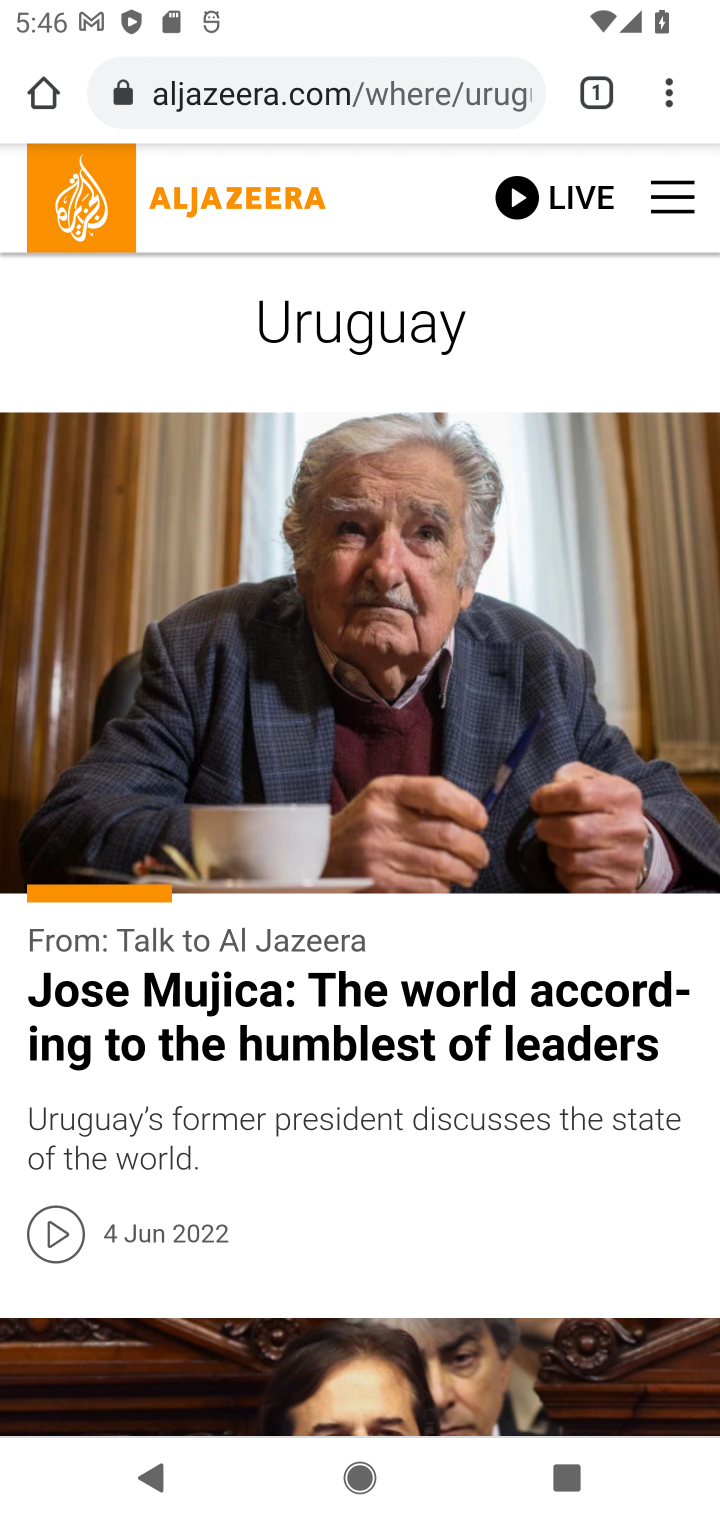
Step 32: drag from (368, 1239) to (381, 409)
Your task to perform on an android device: What's the news in Uruguay? Image 33: 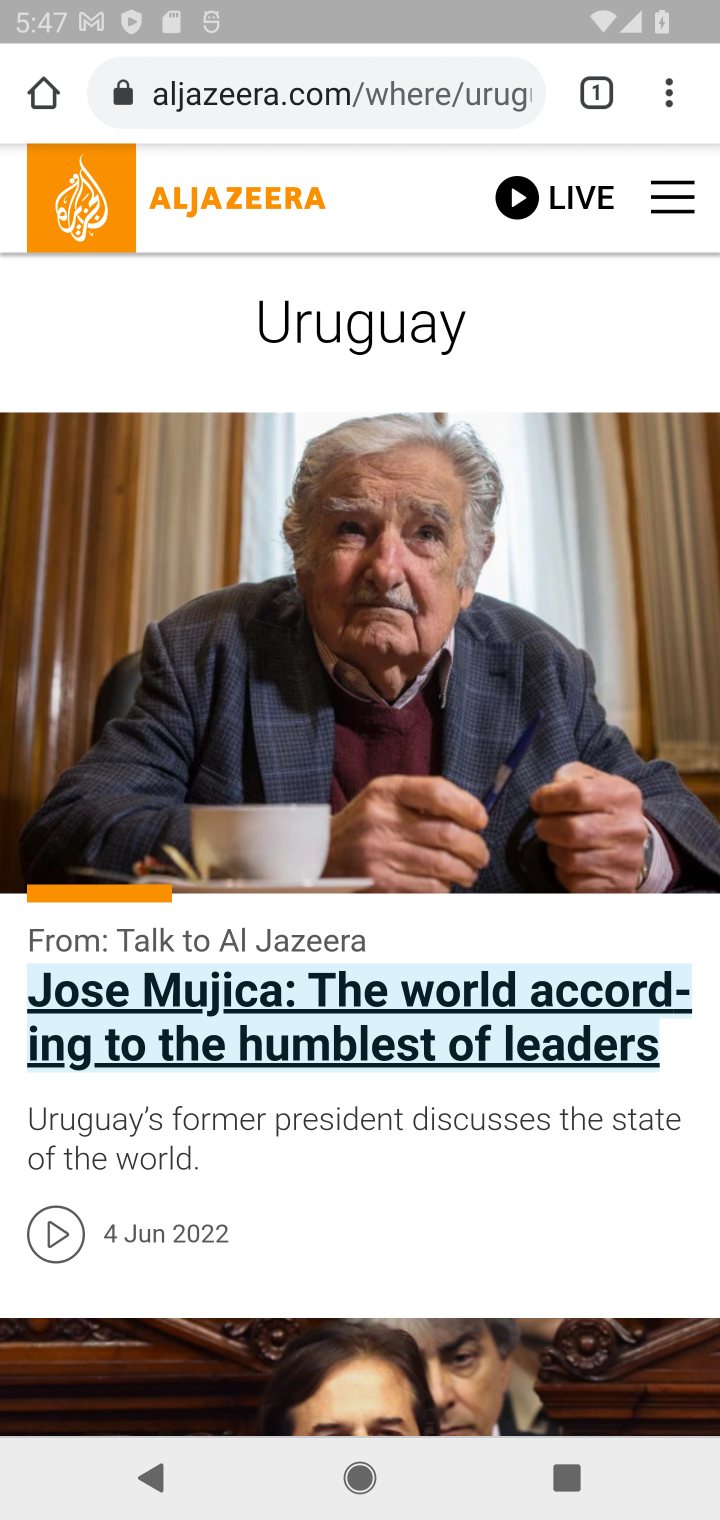
Step 33: drag from (497, 942) to (408, 226)
Your task to perform on an android device: What's the news in Uruguay? Image 34: 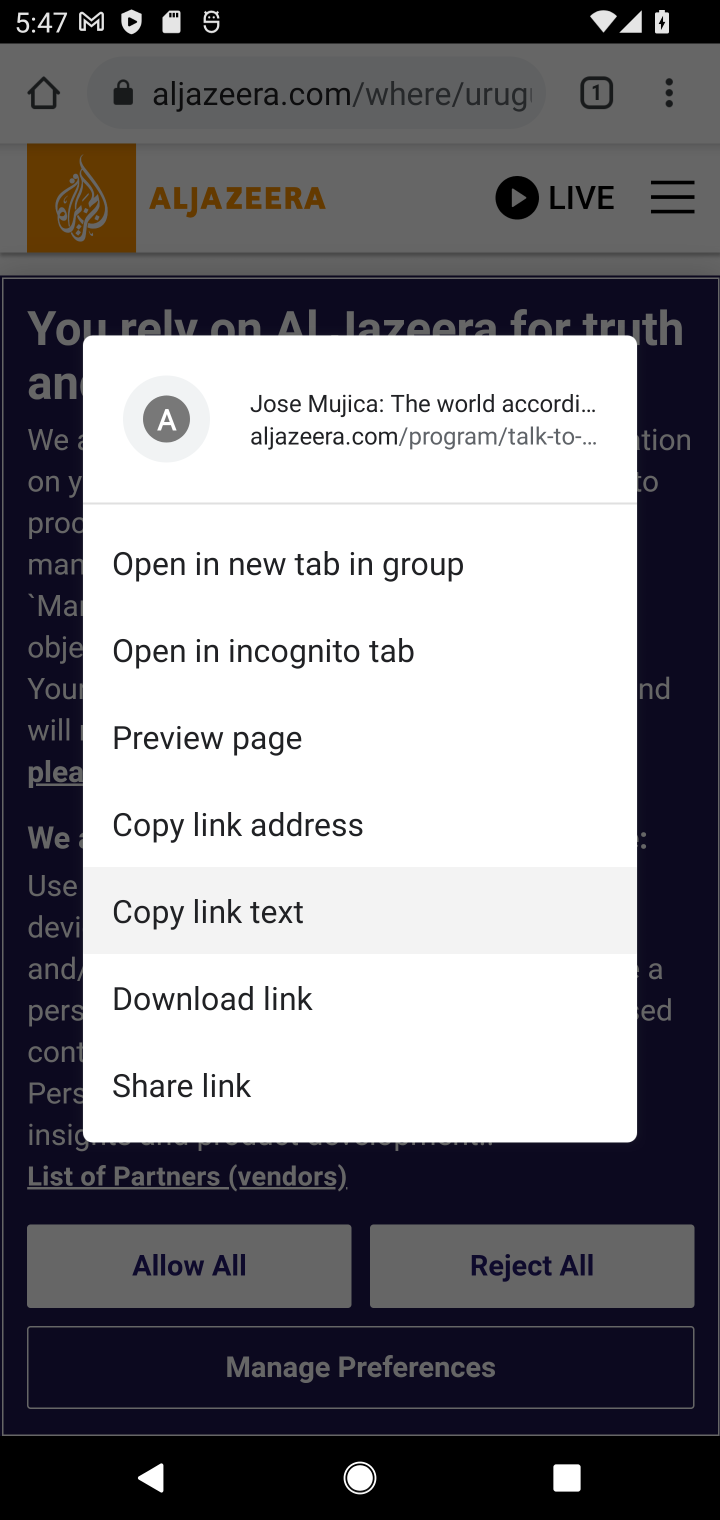
Step 34: click (422, 1358)
Your task to perform on an android device: What's the news in Uruguay? Image 35: 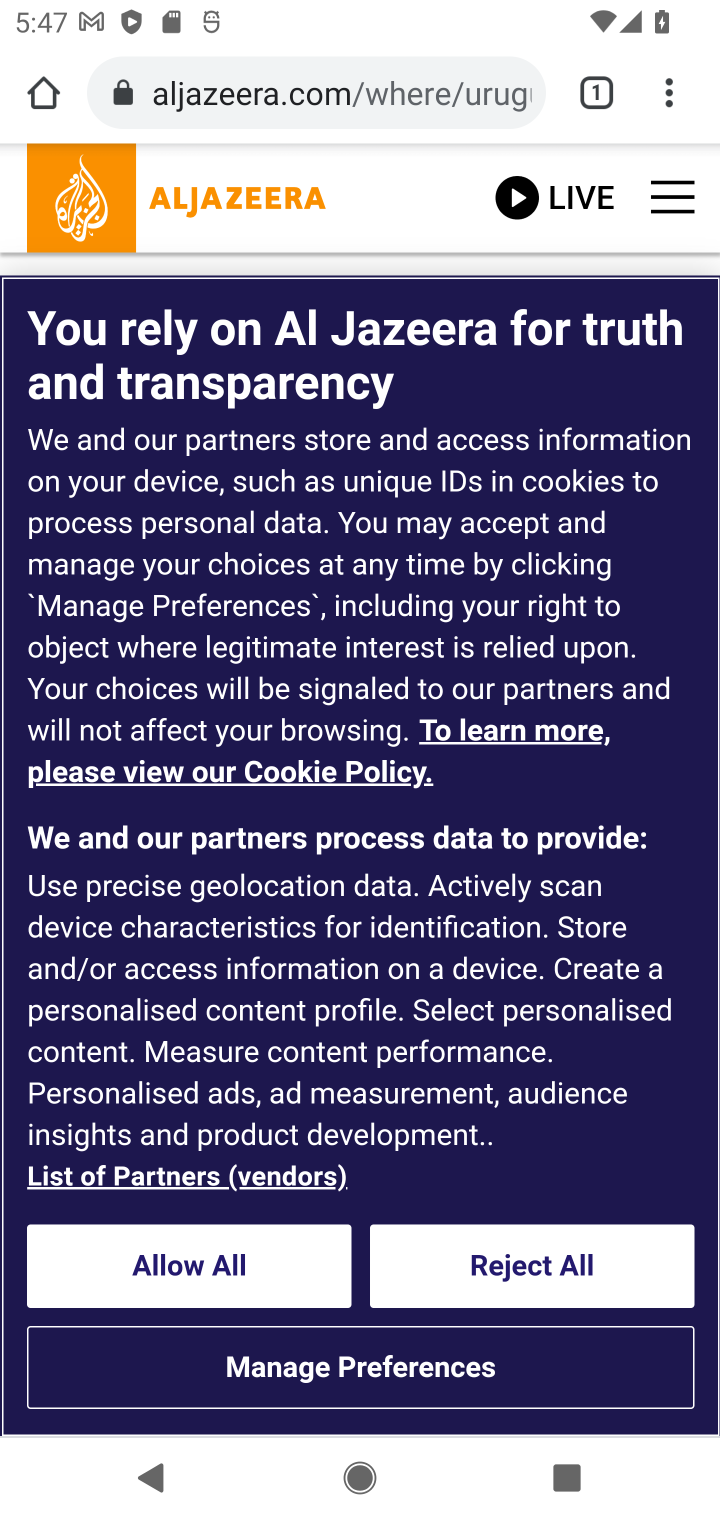
Step 35: click (492, 1243)
Your task to perform on an android device: What's the news in Uruguay? Image 36: 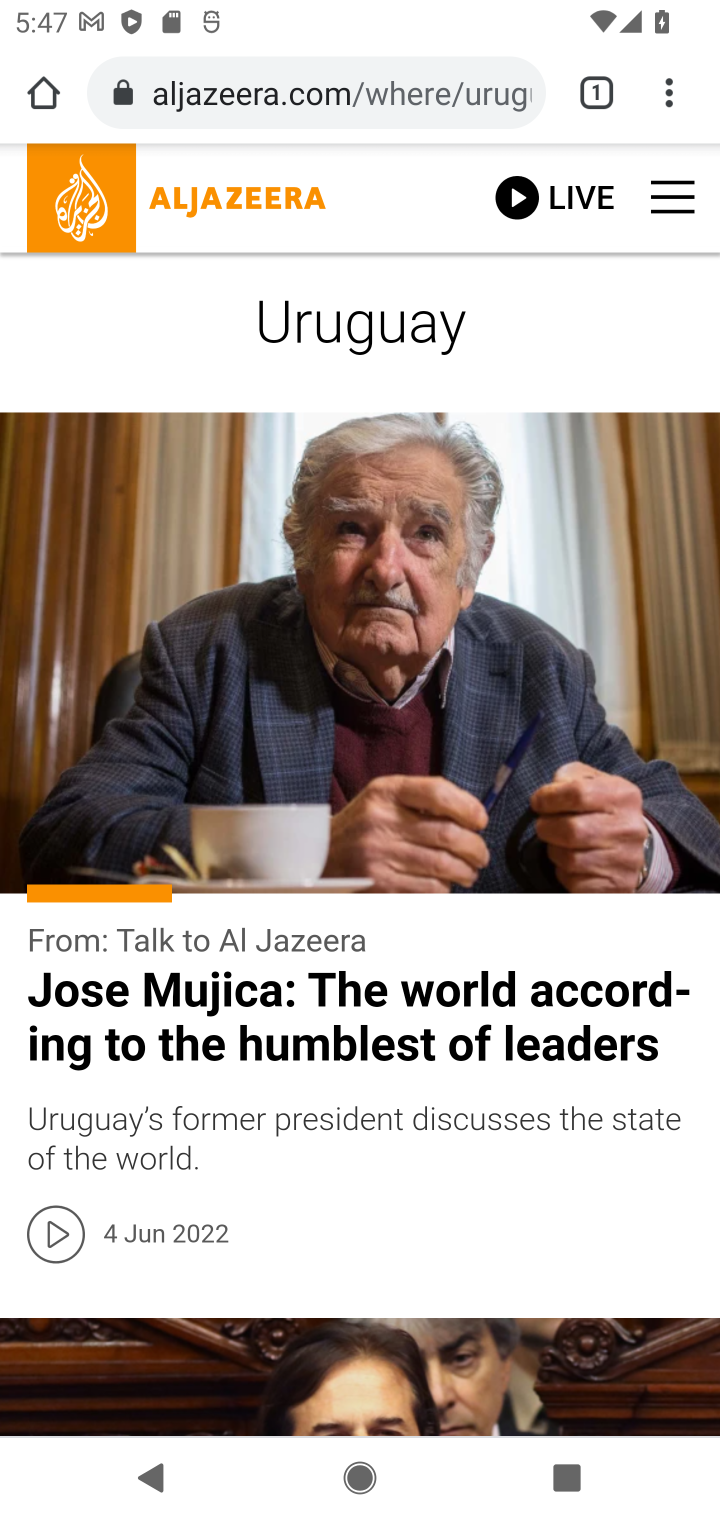
Step 36: drag from (500, 1197) to (401, 491)
Your task to perform on an android device: What's the news in Uruguay? Image 37: 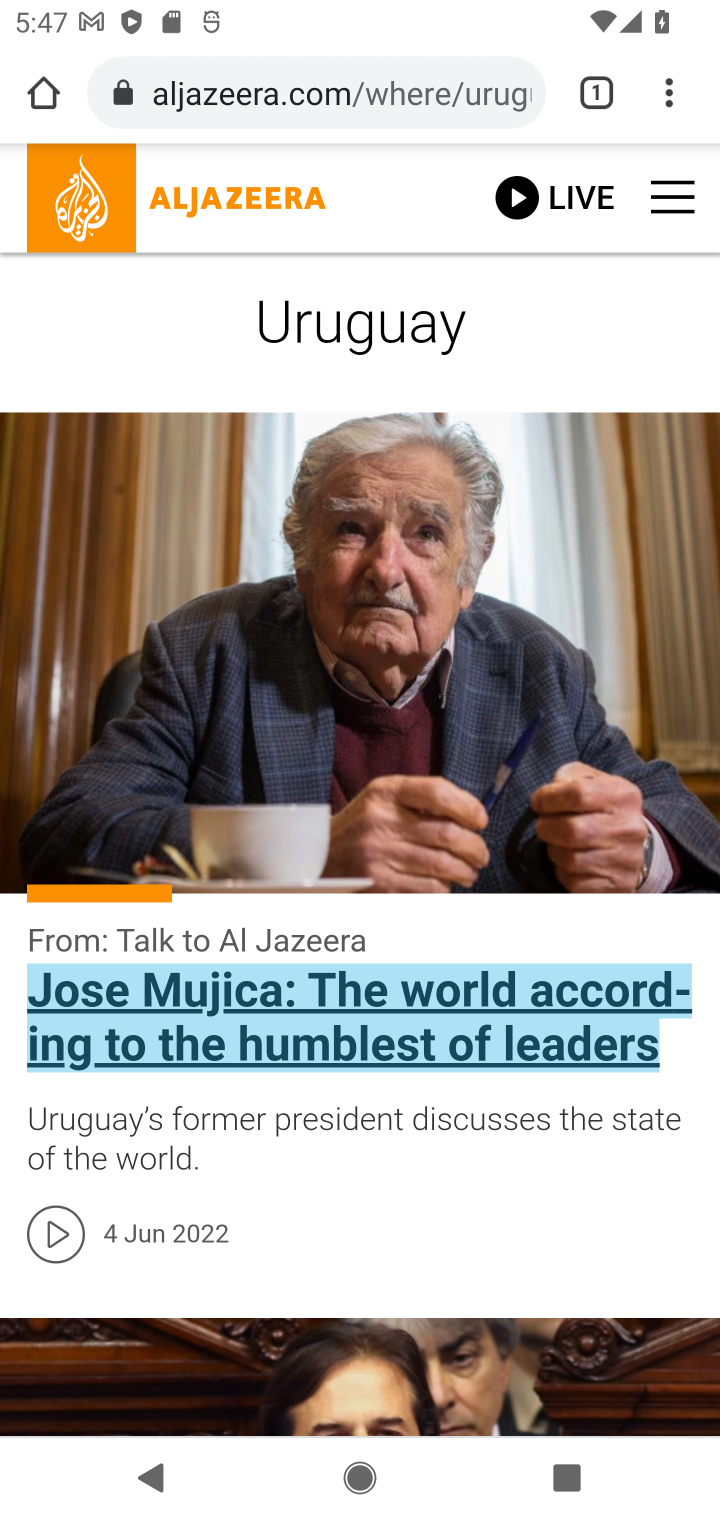
Step 37: drag from (518, 1329) to (503, 409)
Your task to perform on an android device: What's the news in Uruguay? Image 38: 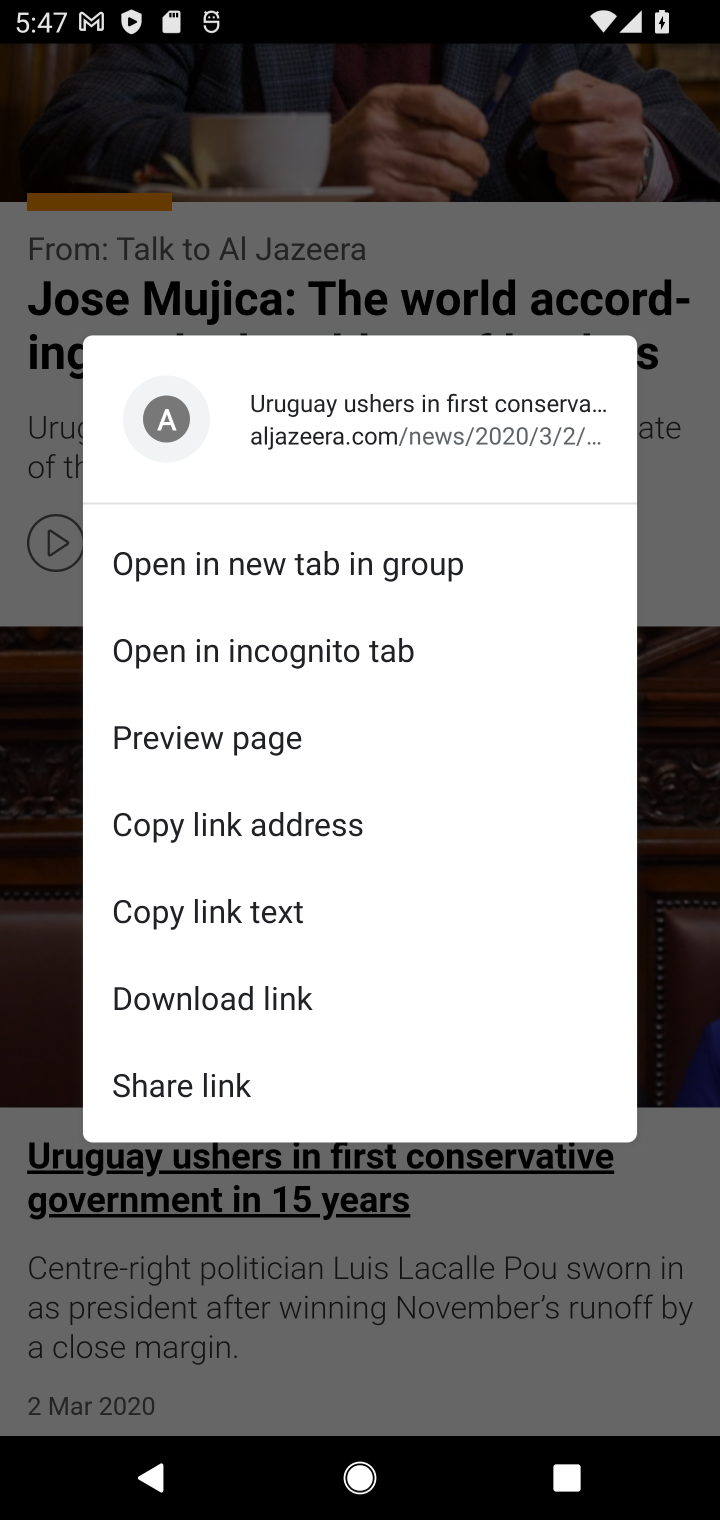
Step 38: click (325, 1386)
Your task to perform on an android device: What's the news in Uruguay? Image 39: 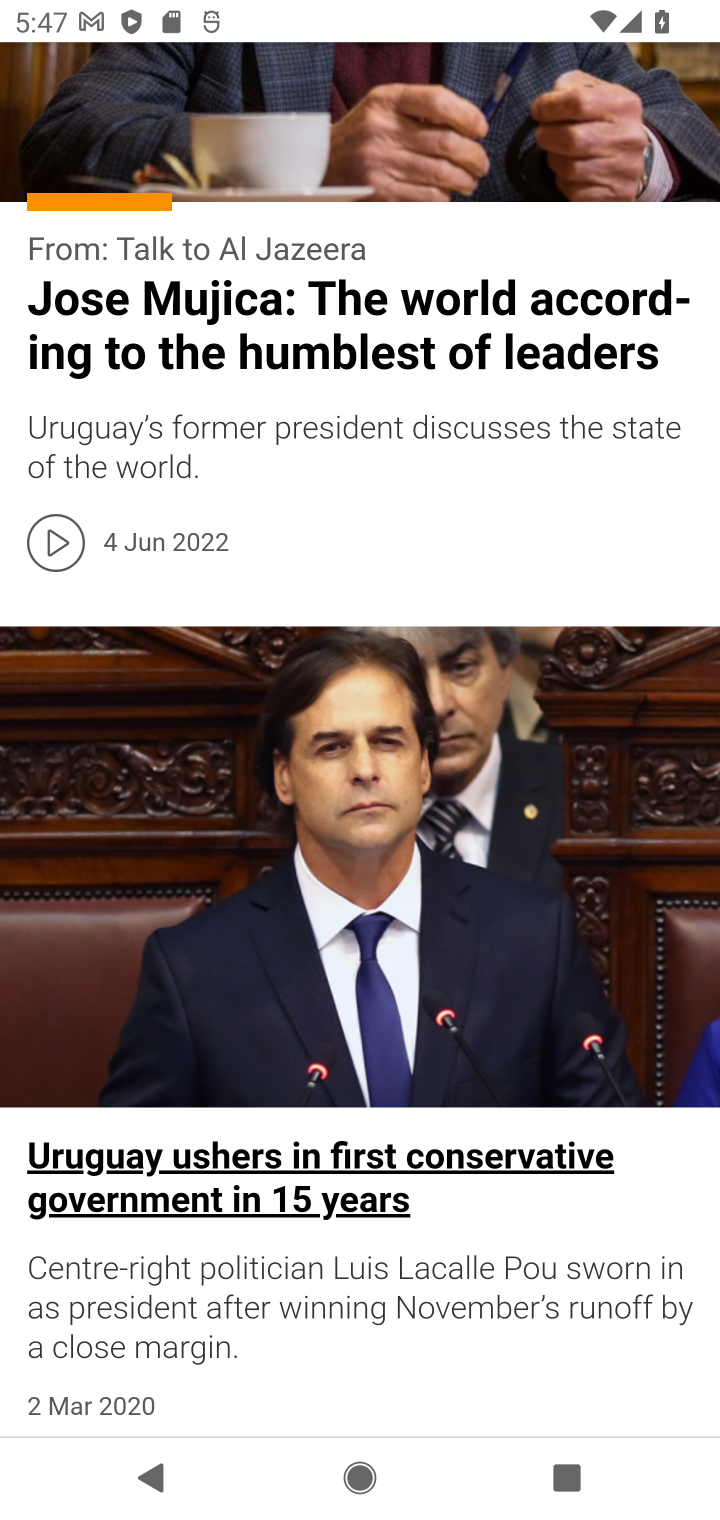
Step 39: click (214, 1167)
Your task to perform on an android device: What's the news in Uruguay? Image 40: 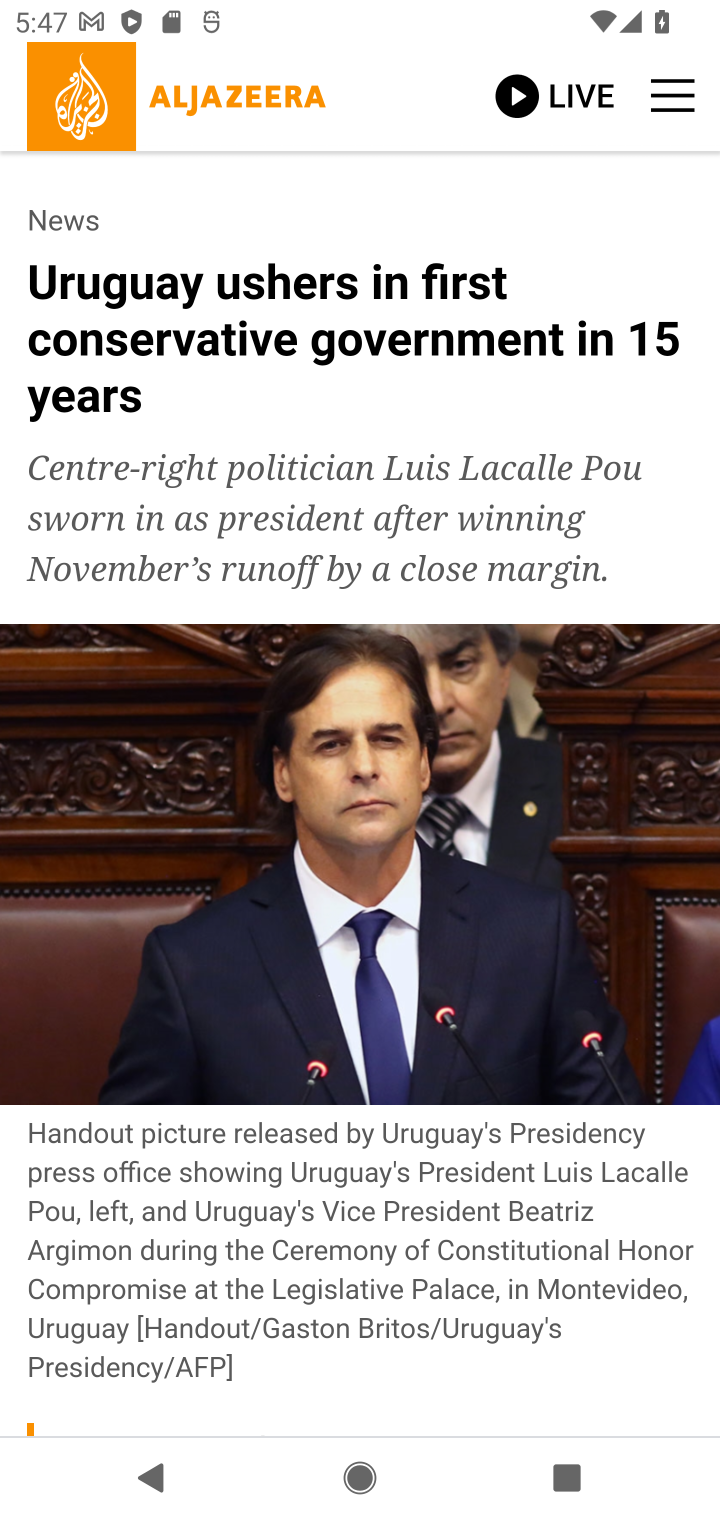
Step 40: drag from (341, 1115) to (377, 240)
Your task to perform on an android device: What's the news in Uruguay? Image 41: 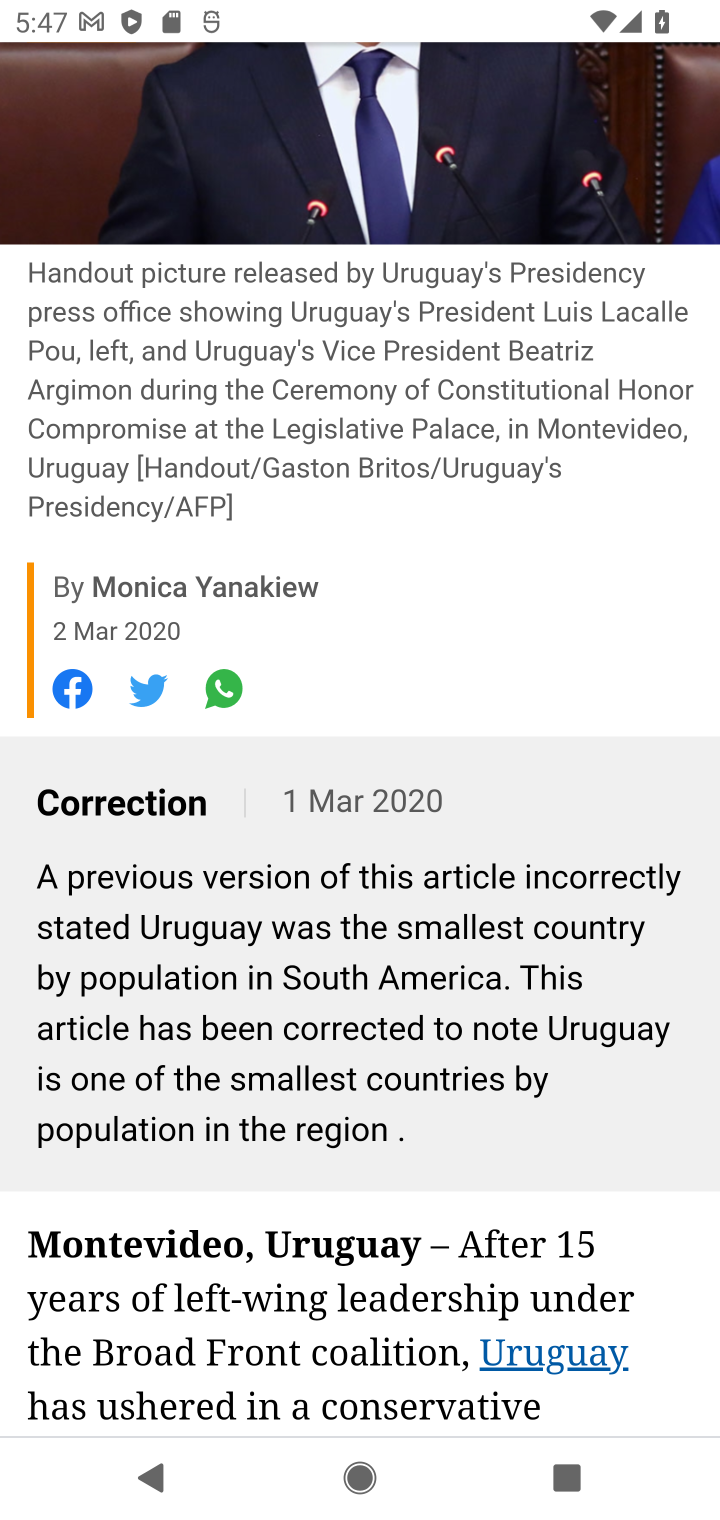
Step 41: drag from (496, 1048) to (484, 184)
Your task to perform on an android device: What's the news in Uruguay? Image 42: 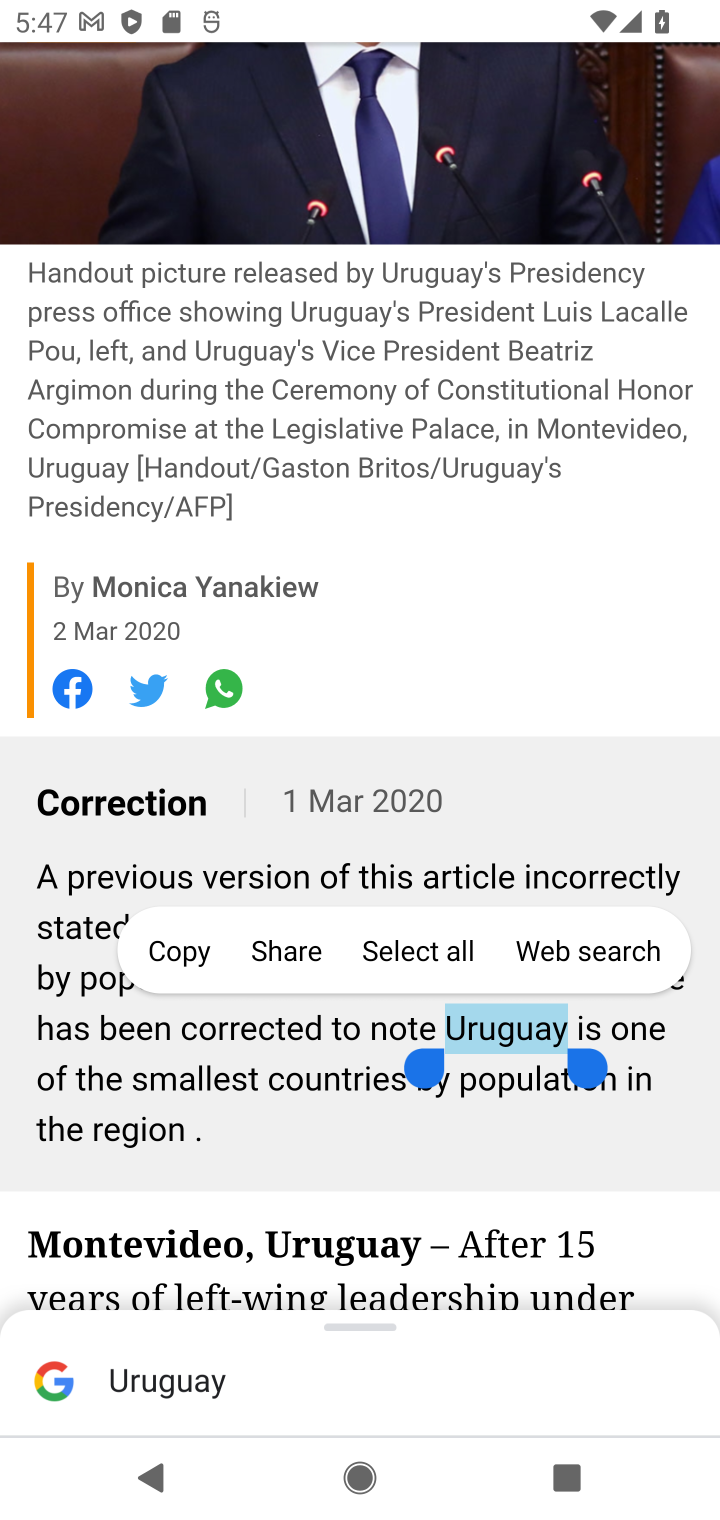
Step 42: click (500, 656)
Your task to perform on an android device: What's the news in Uruguay? Image 43: 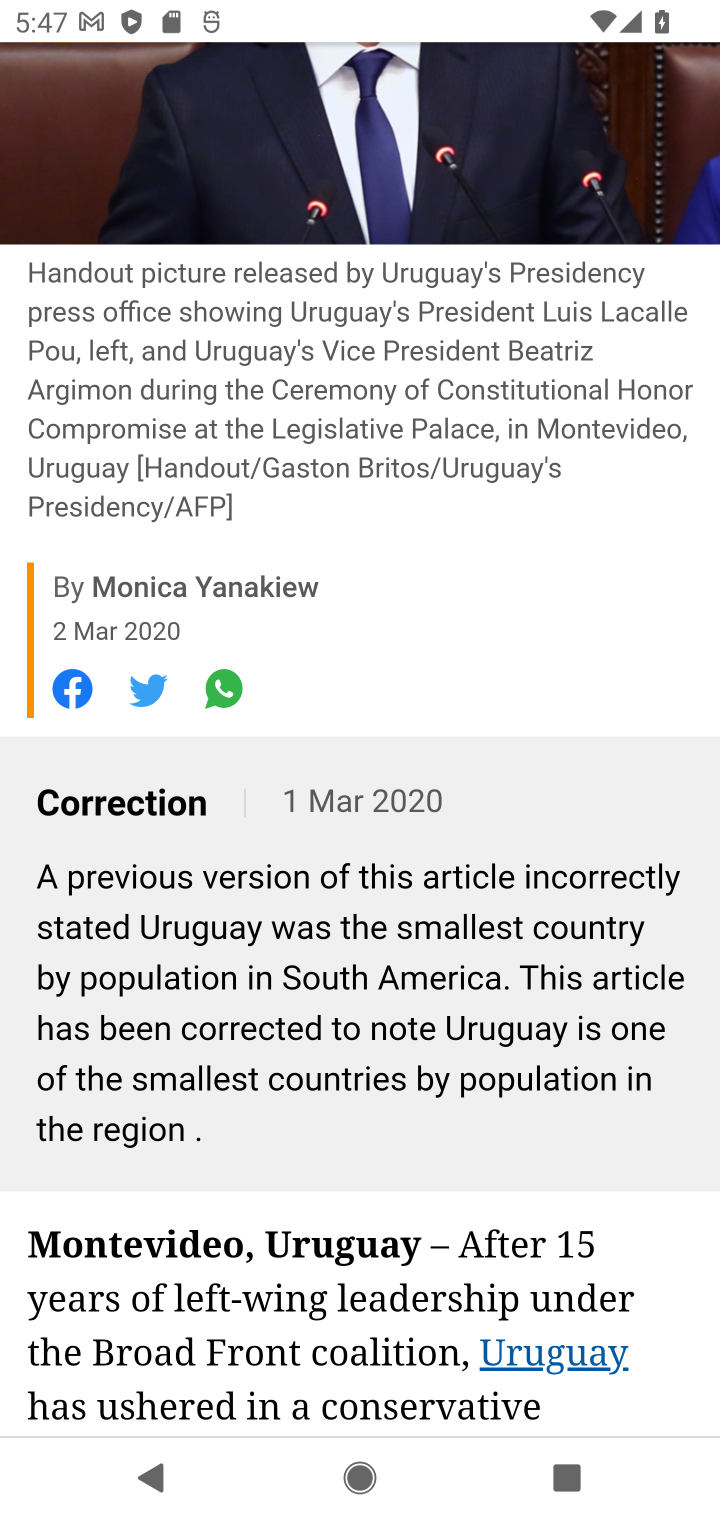
Step 43: drag from (498, 1160) to (476, 343)
Your task to perform on an android device: What's the news in Uruguay? Image 44: 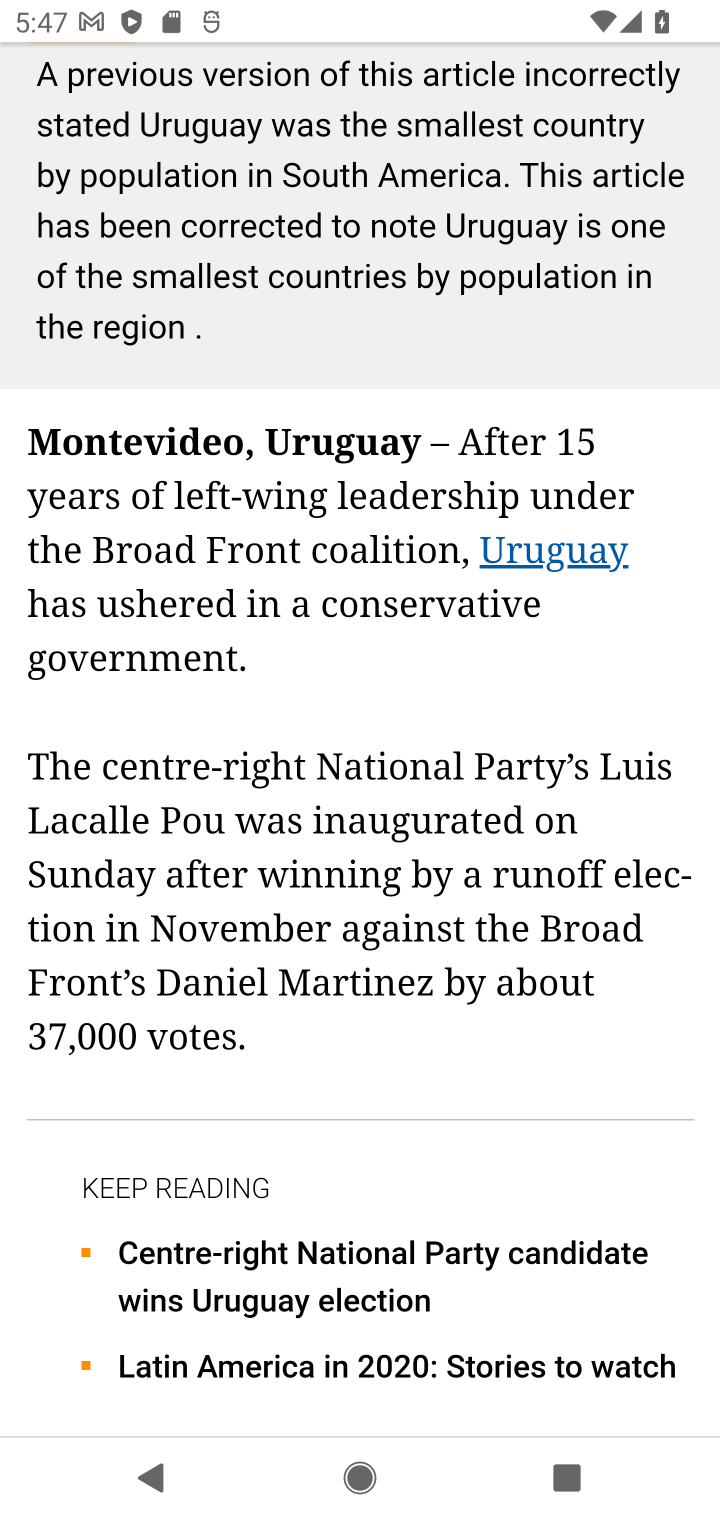
Step 44: drag from (531, 886) to (506, 287)
Your task to perform on an android device: What's the news in Uruguay? Image 45: 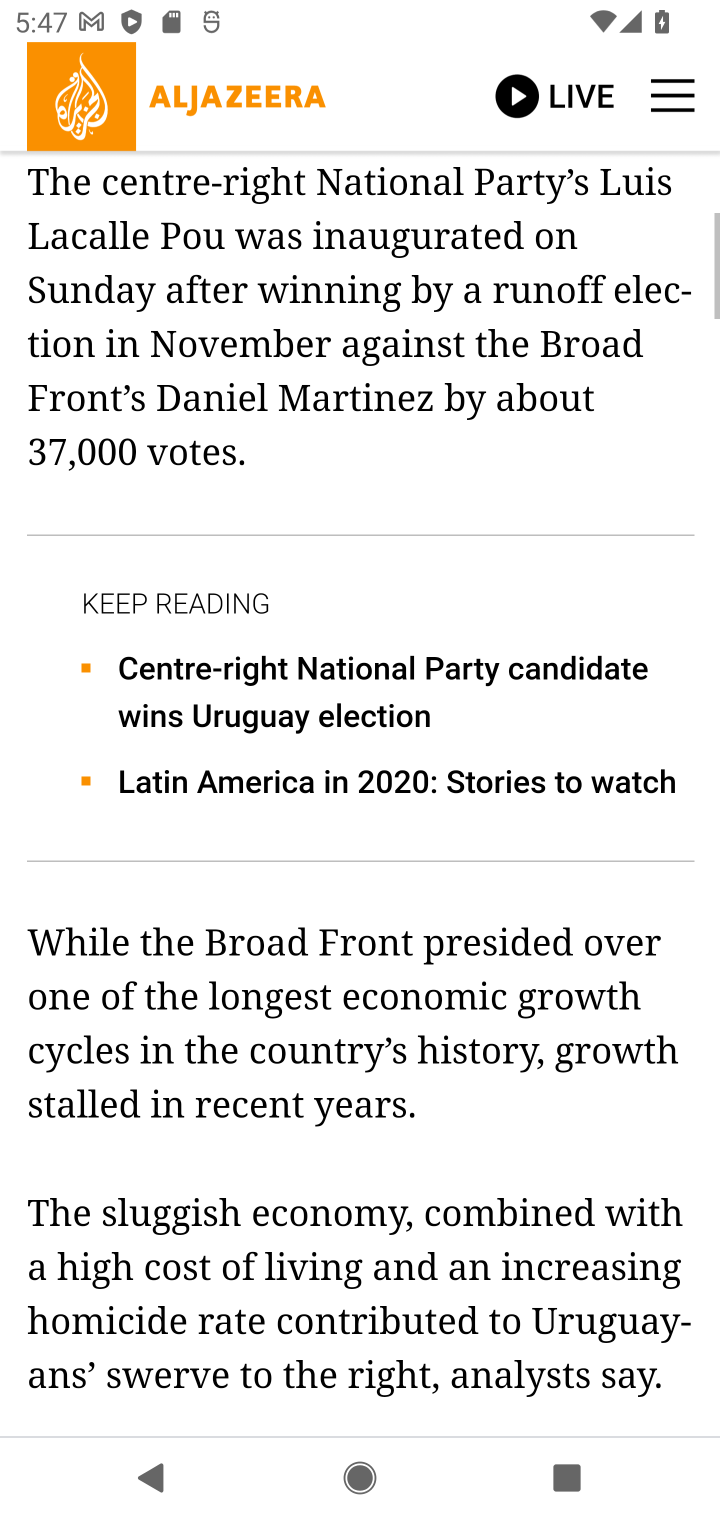
Step 45: drag from (524, 1015) to (529, 166)
Your task to perform on an android device: What's the news in Uruguay? Image 46: 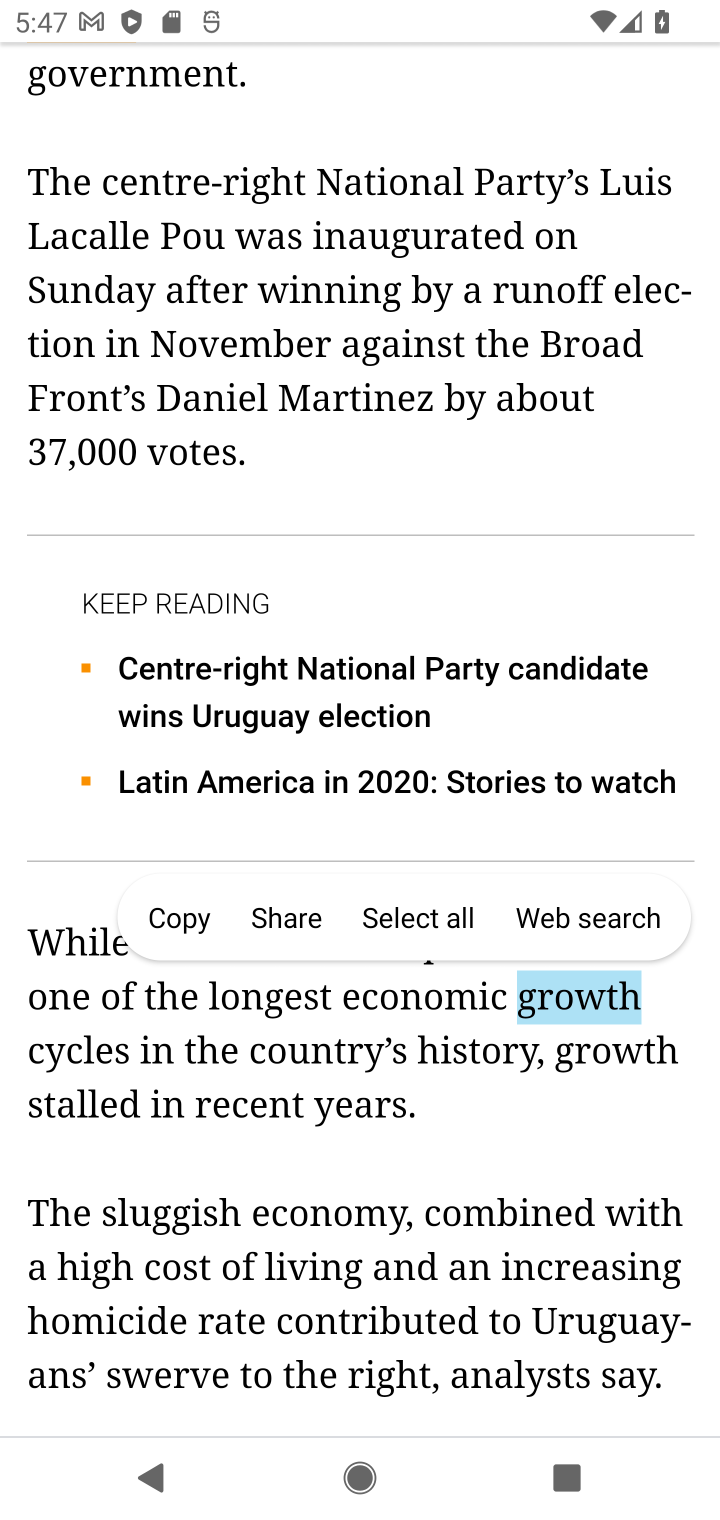
Step 46: drag from (512, 841) to (504, 328)
Your task to perform on an android device: What's the news in Uruguay? Image 47: 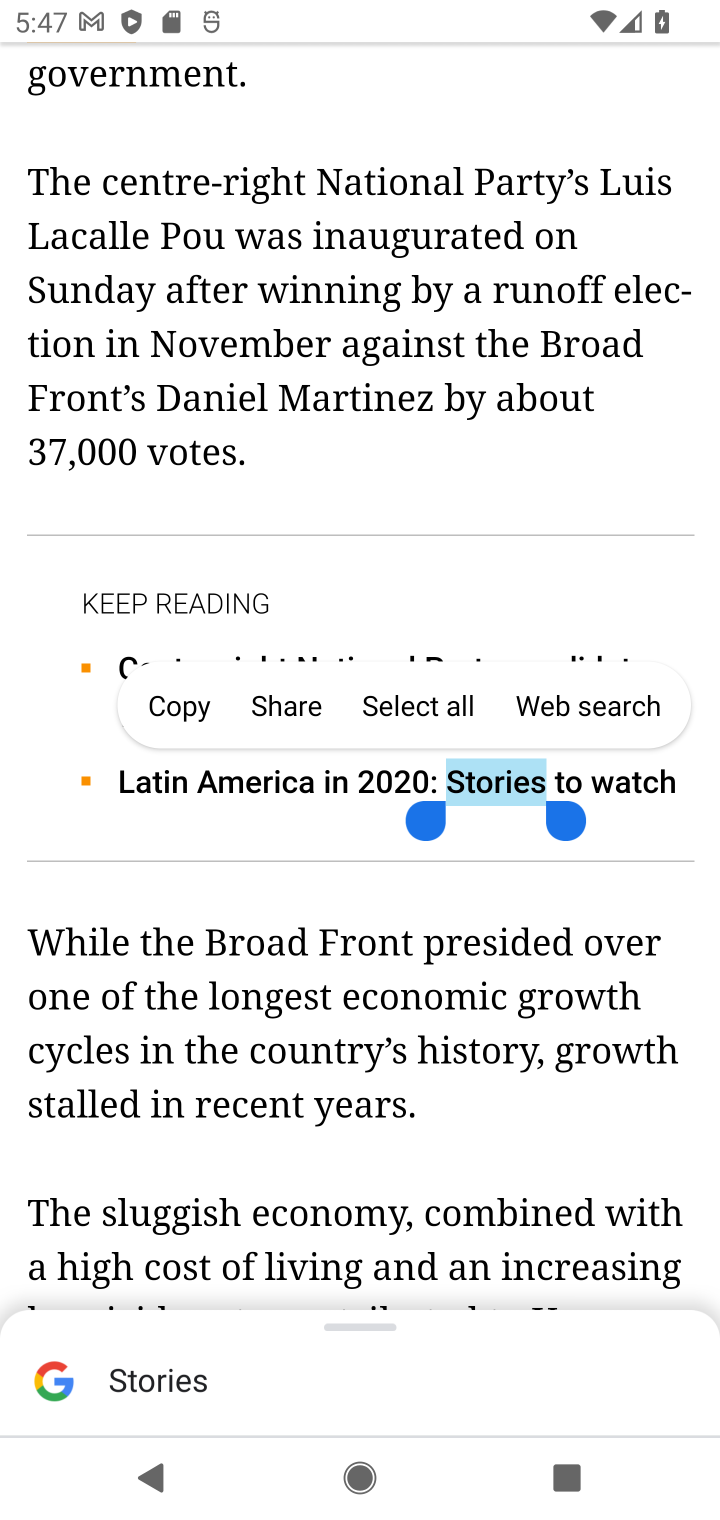
Step 47: click (522, 1140)
Your task to perform on an android device: What's the news in Uruguay? Image 48: 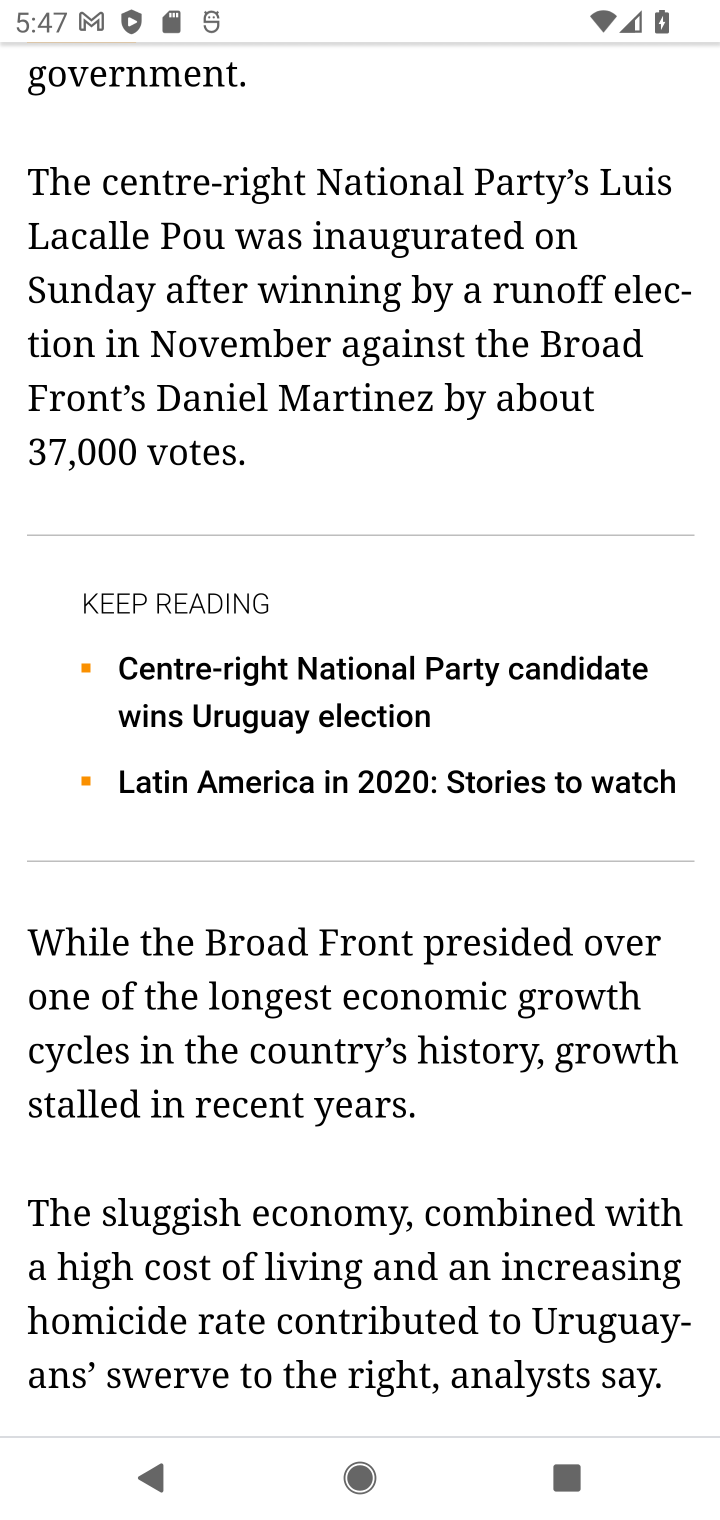
Step 48: drag from (522, 1140) to (545, 239)
Your task to perform on an android device: What's the news in Uruguay? Image 49: 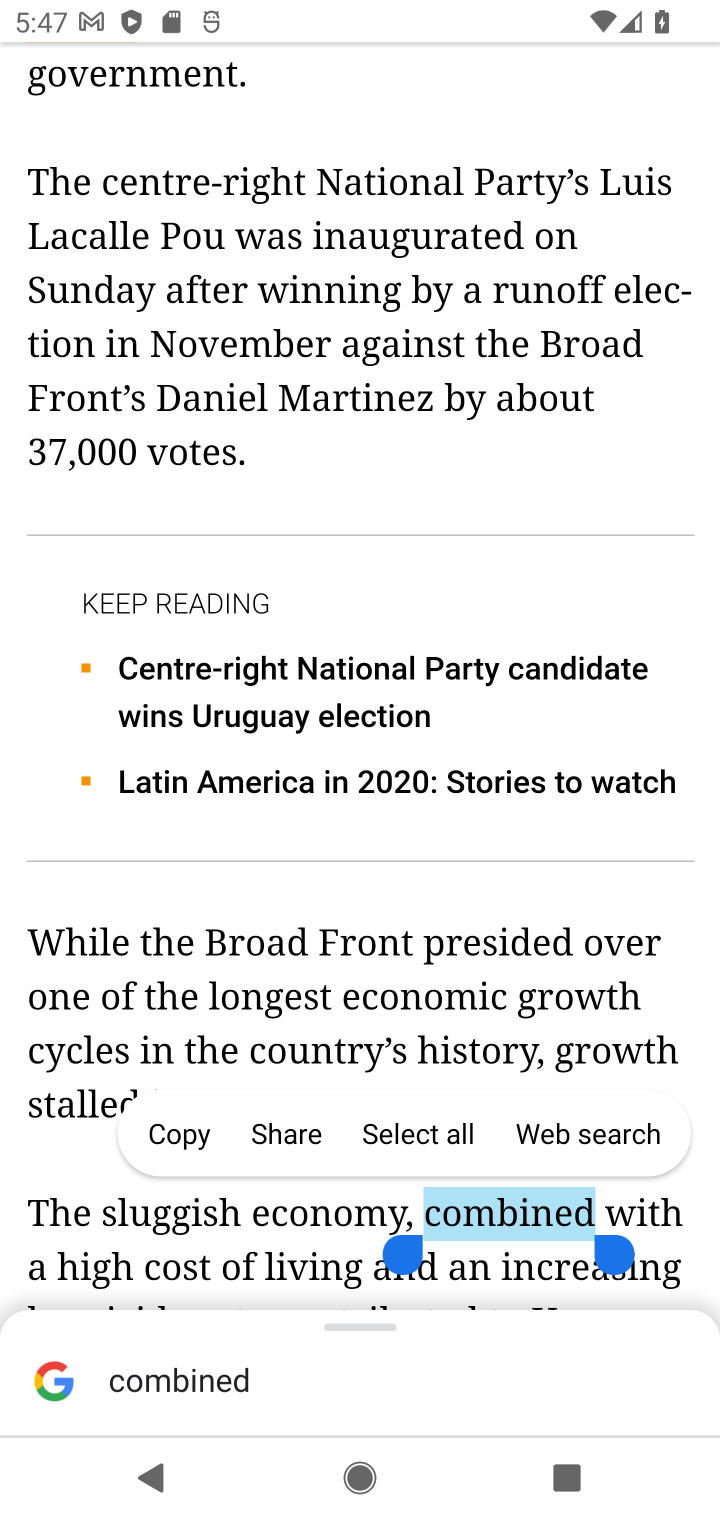
Step 49: drag from (393, 915) to (484, 226)
Your task to perform on an android device: What's the news in Uruguay? Image 50: 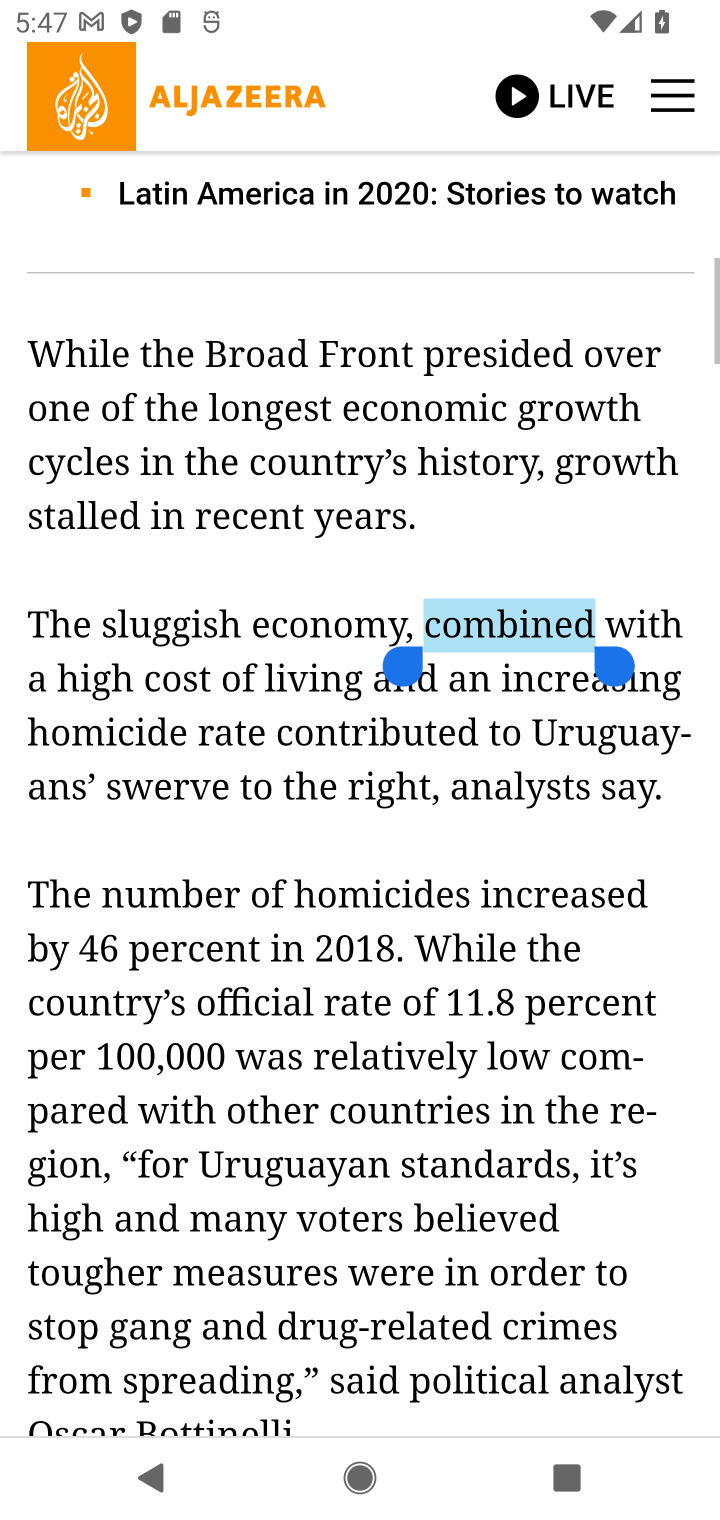
Step 50: drag from (479, 932) to (585, 225)
Your task to perform on an android device: What's the news in Uruguay? Image 51: 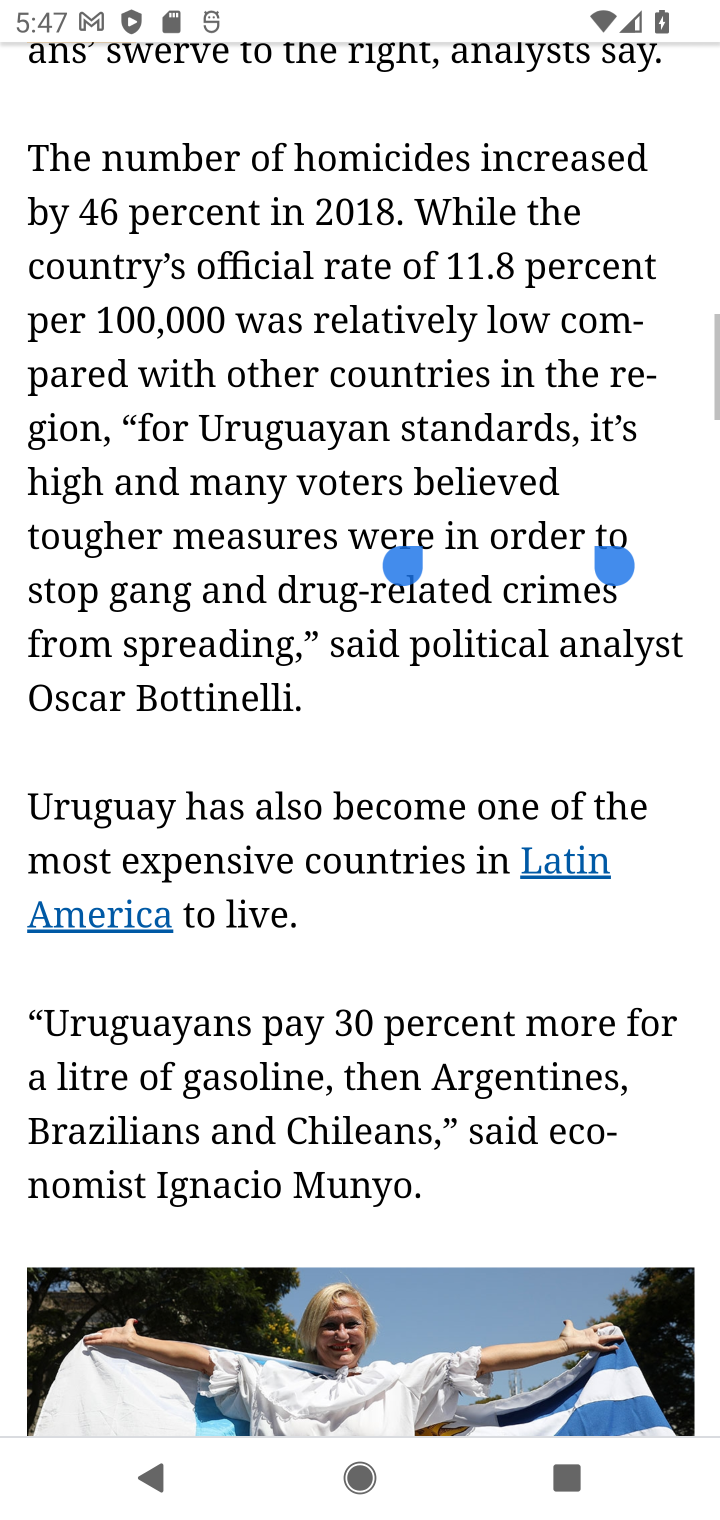
Step 51: drag from (524, 994) to (477, 395)
Your task to perform on an android device: What's the news in Uruguay? Image 52: 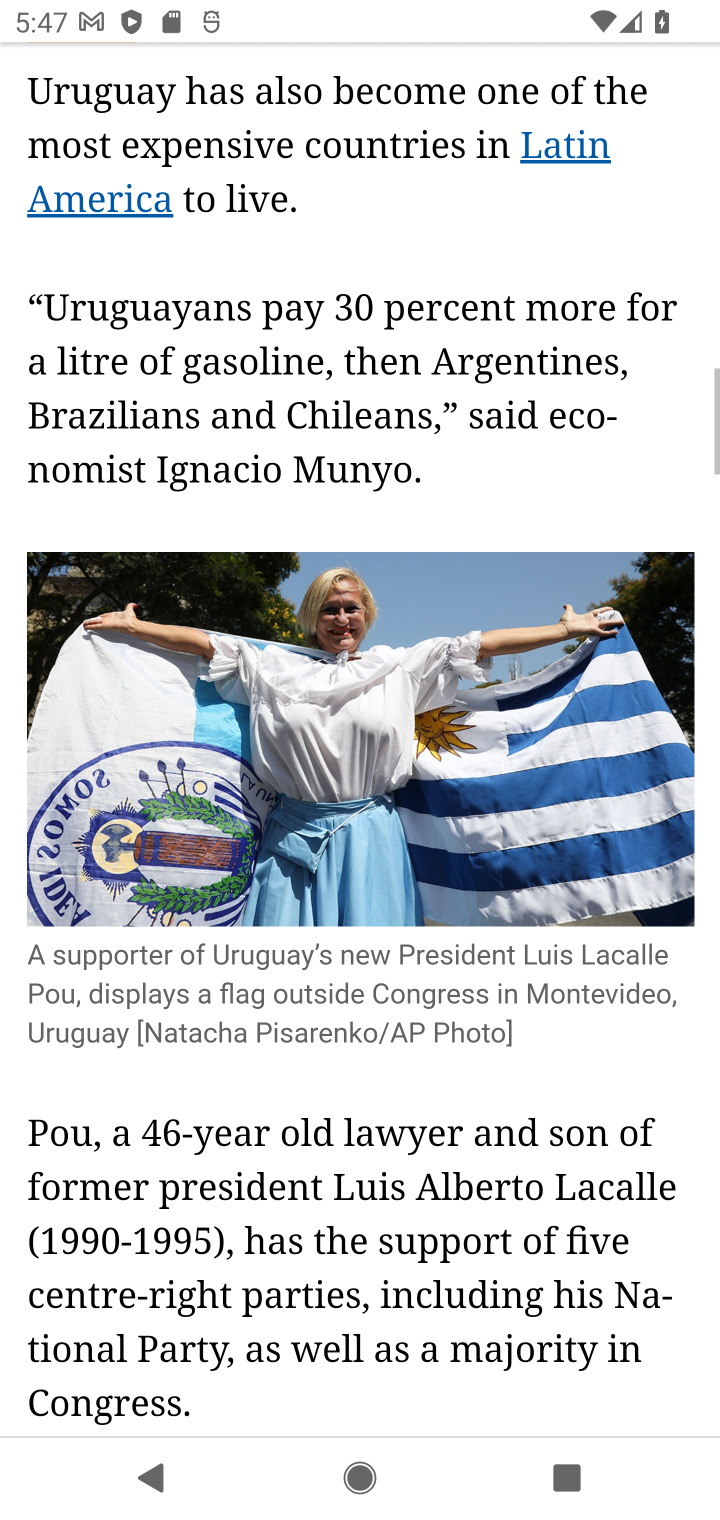
Step 52: drag from (494, 955) to (423, 487)
Your task to perform on an android device: What's the news in Uruguay? Image 53: 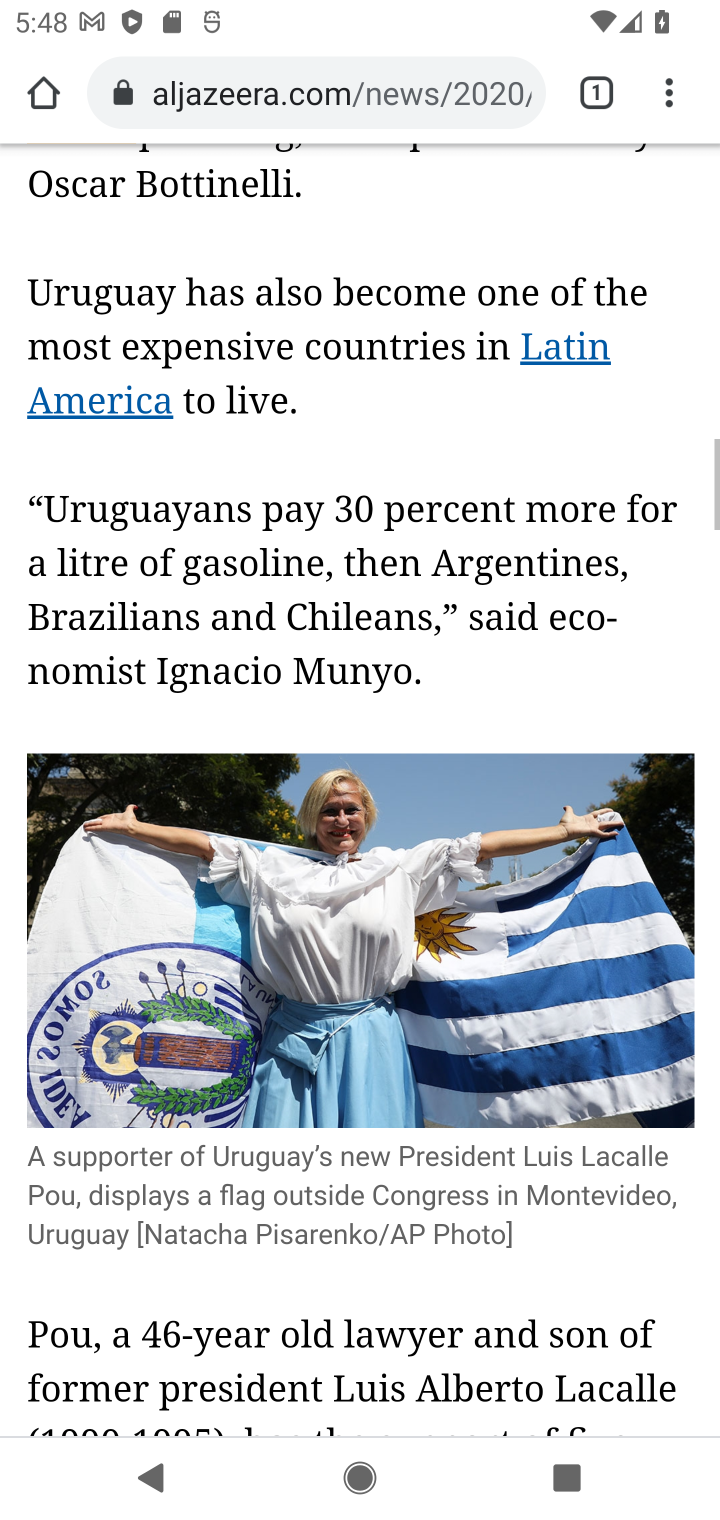
Step 53: drag from (432, 1128) to (503, 485)
Your task to perform on an android device: What's the news in Uruguay? Image 54: 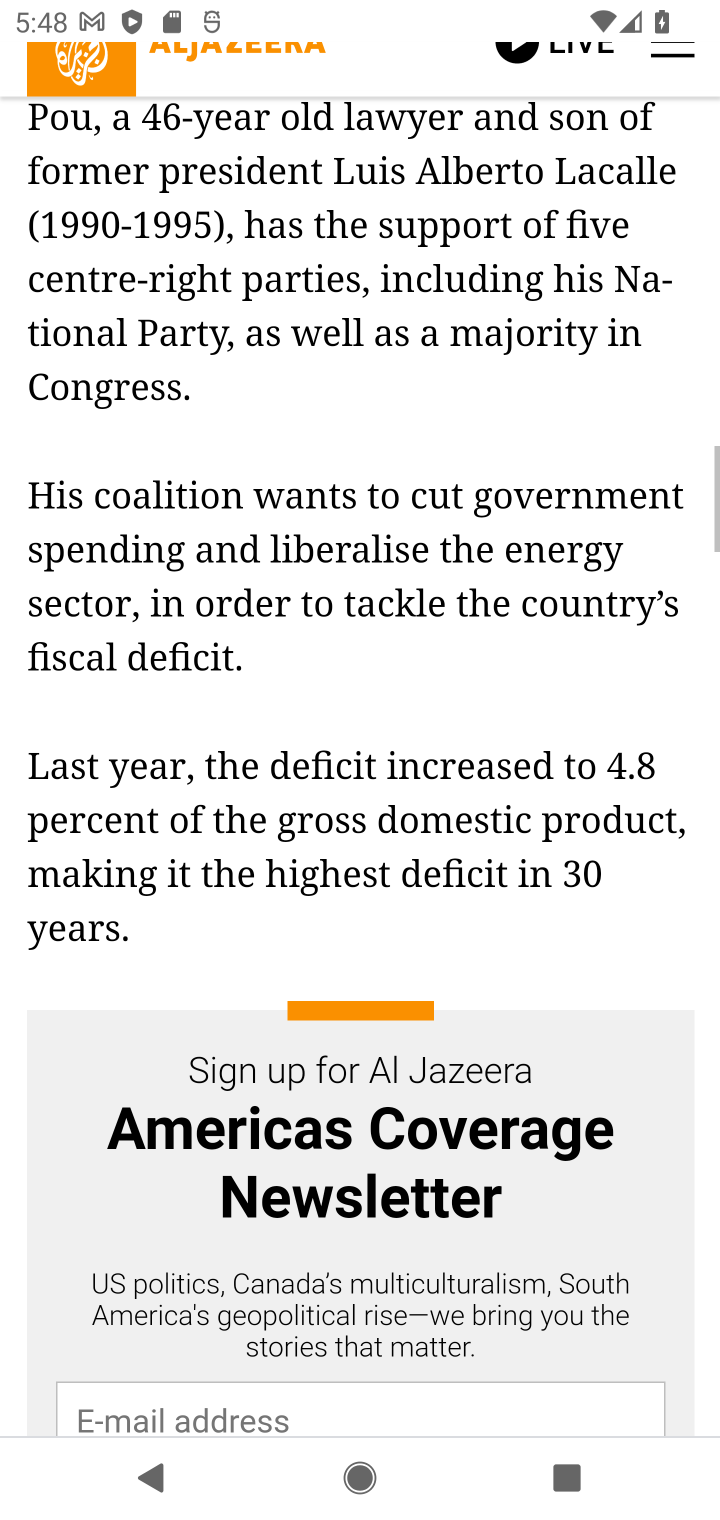
Step 54: drag from (491, 1058) to (552, 476)
Your task to perform on an android device: What's the news in Uruguay? Image 55: 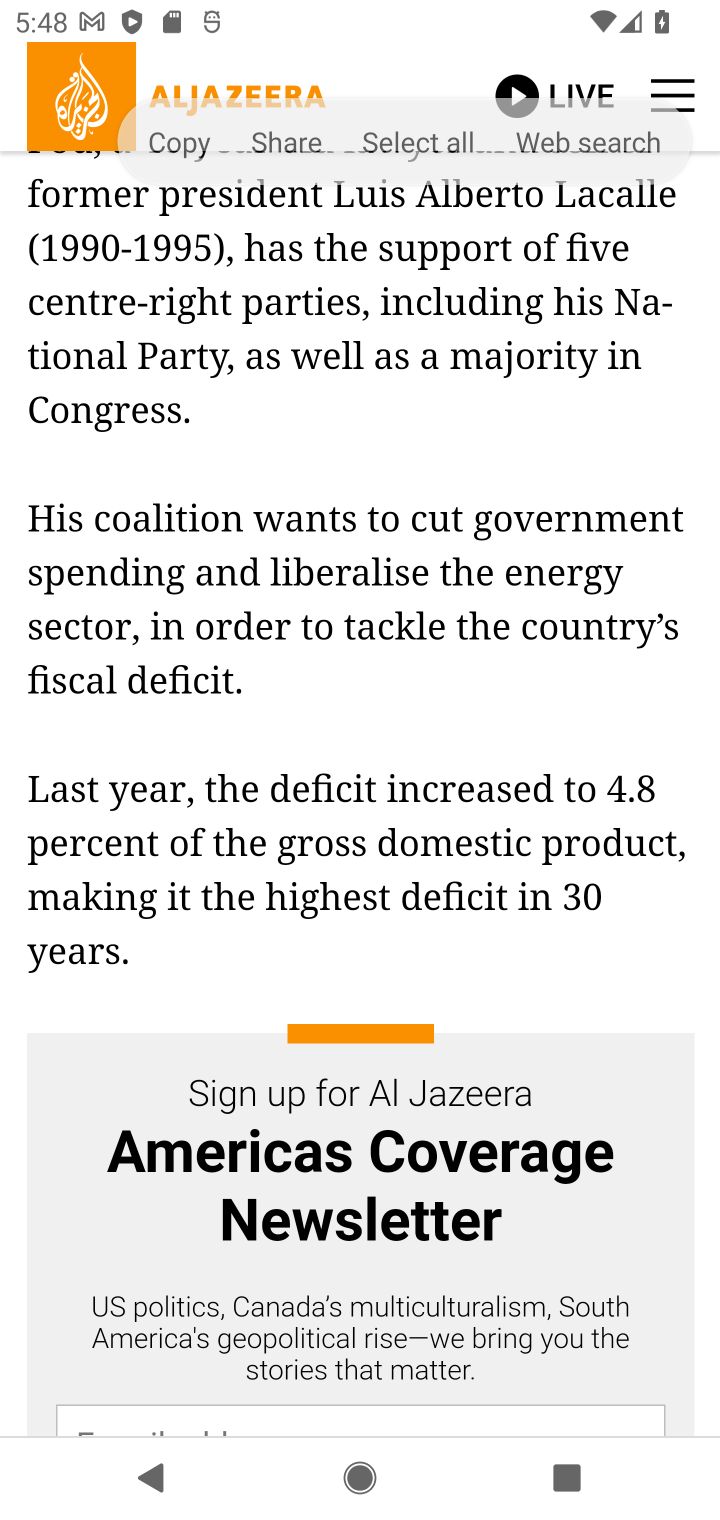
Step 55: drag from (563, 1046) to (581, 429)
Your task to perform on an android device: What's the news in Uruguay? Image 56: 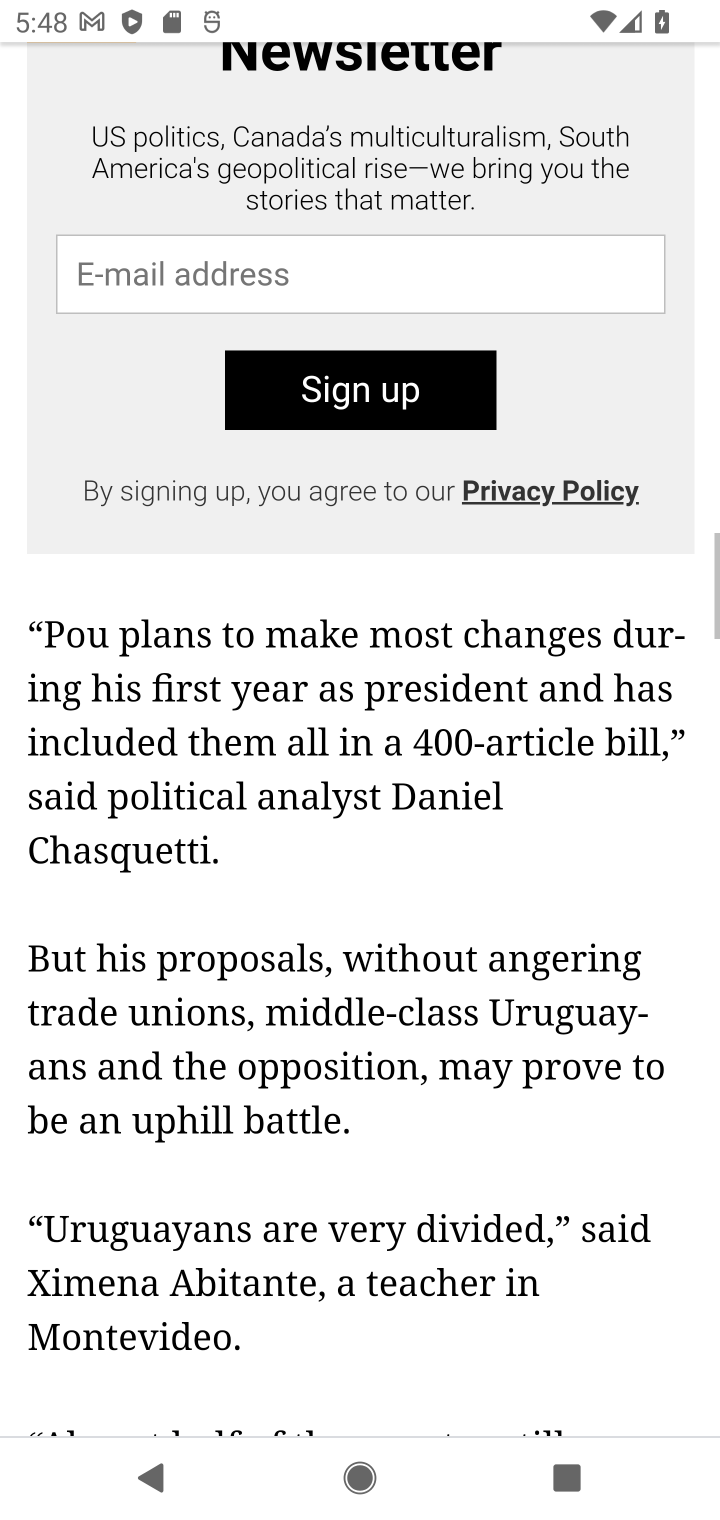
Step 56: drag from (552, 1214) to (542, 468)
Your task to perform on an android device: What's the news in Uruguay? Image 57: 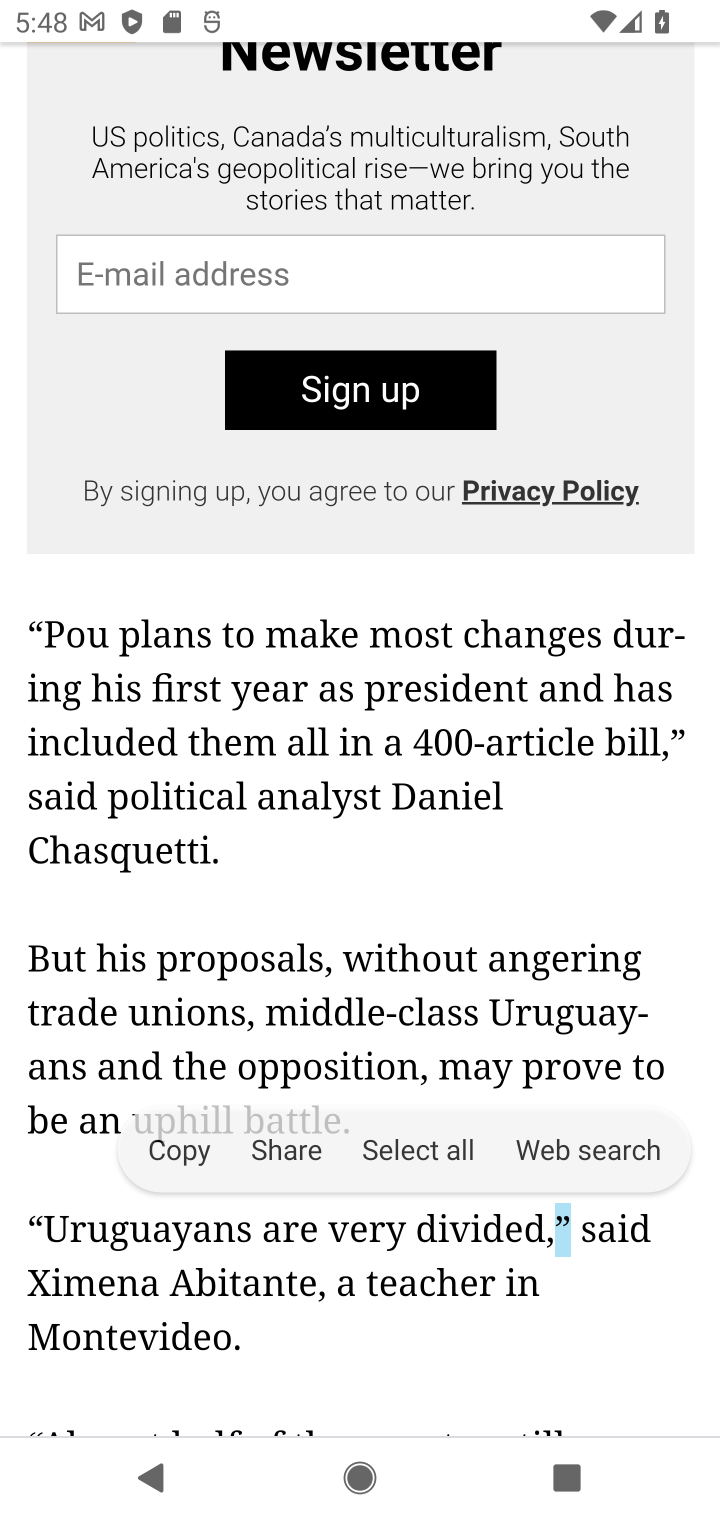
Step 57: drag from (517, 1122) to (553, 443)
Your task to perform on an android device: What's the news in Uruguay? Image 58: 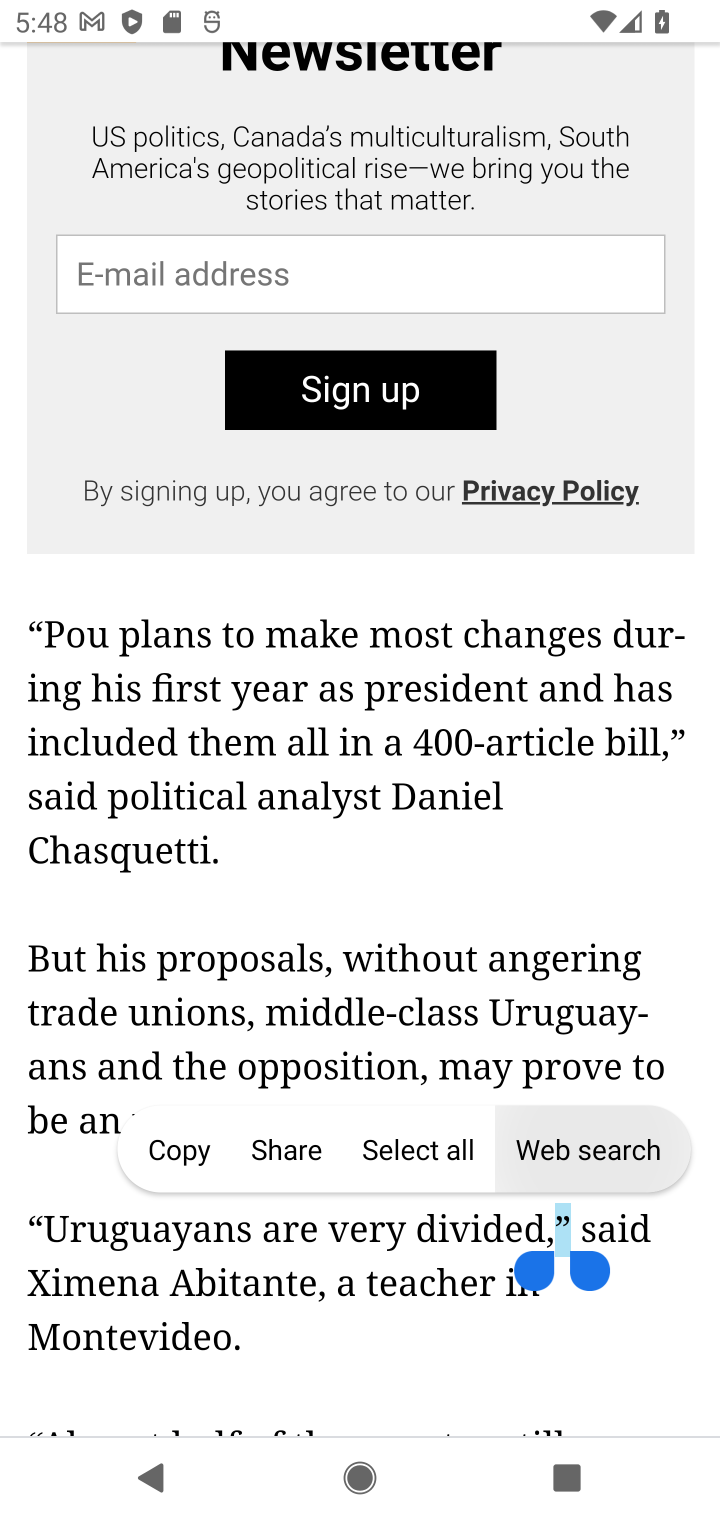
Step 58: click (501, 877)
Your task to perform on an android device: What's the news in Uruguay? Image 59: 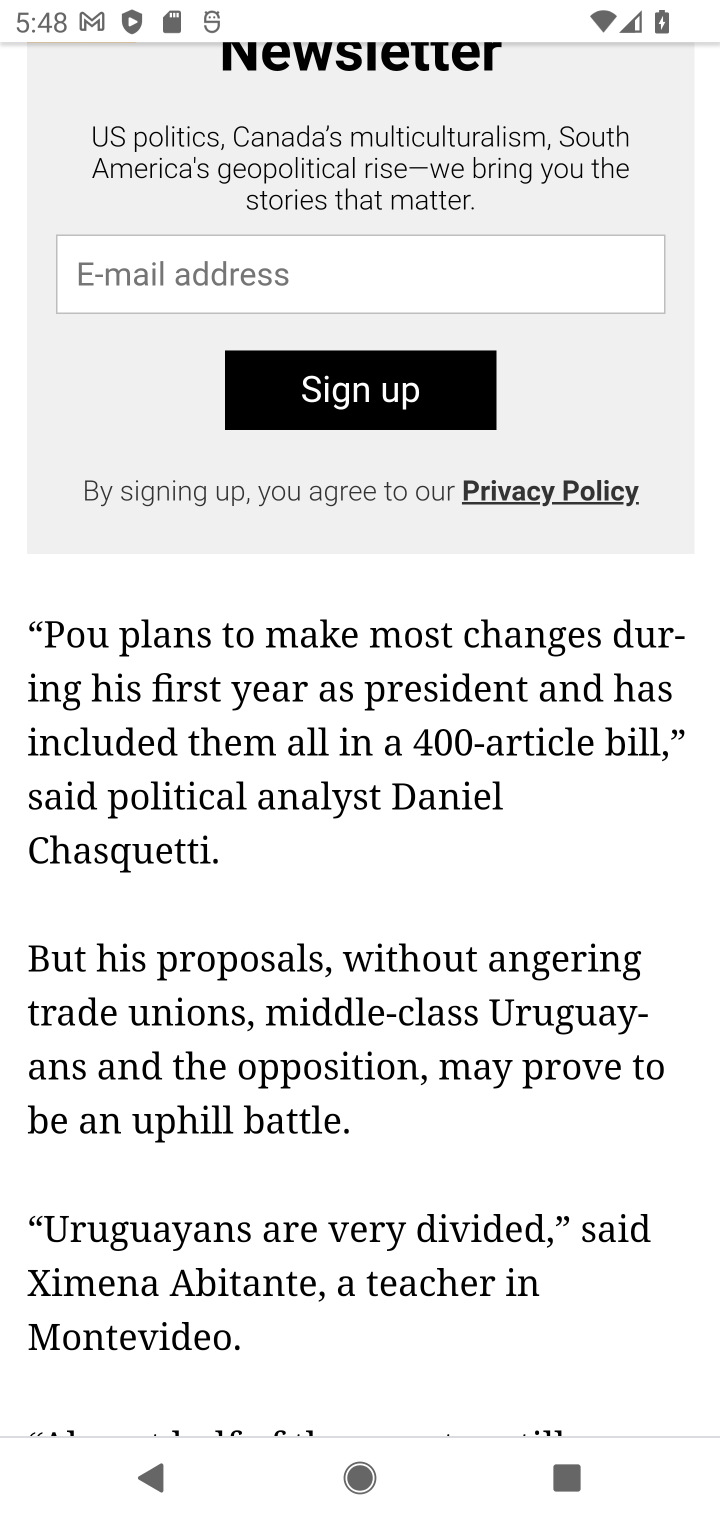
Step 59: task complete